Your task to perform on an android device: Add "usb-c to usb-b" to the cart on costco Image 0: 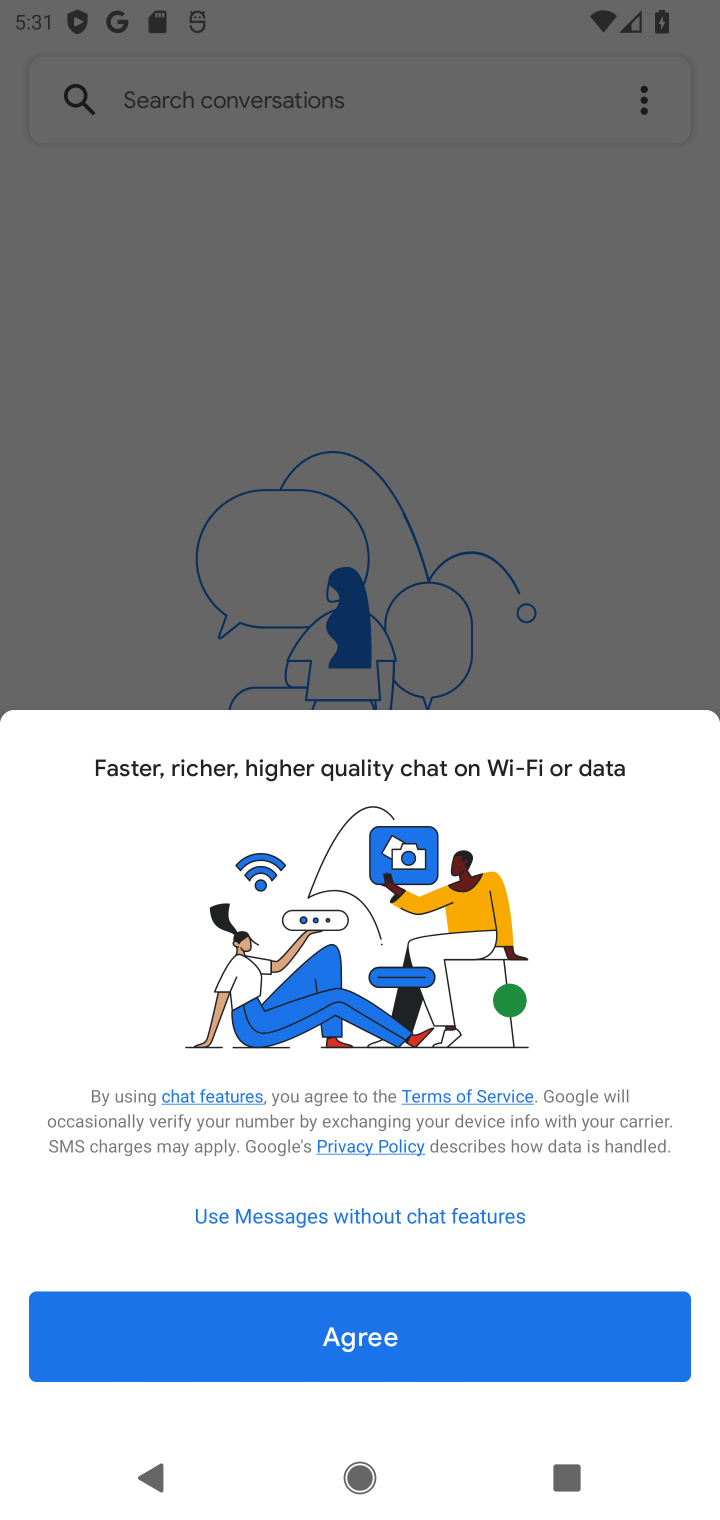
Step 0: press home button
Your task to perform on an android device: Add "usb-c to usb-b" to the cart on costco Image 1: 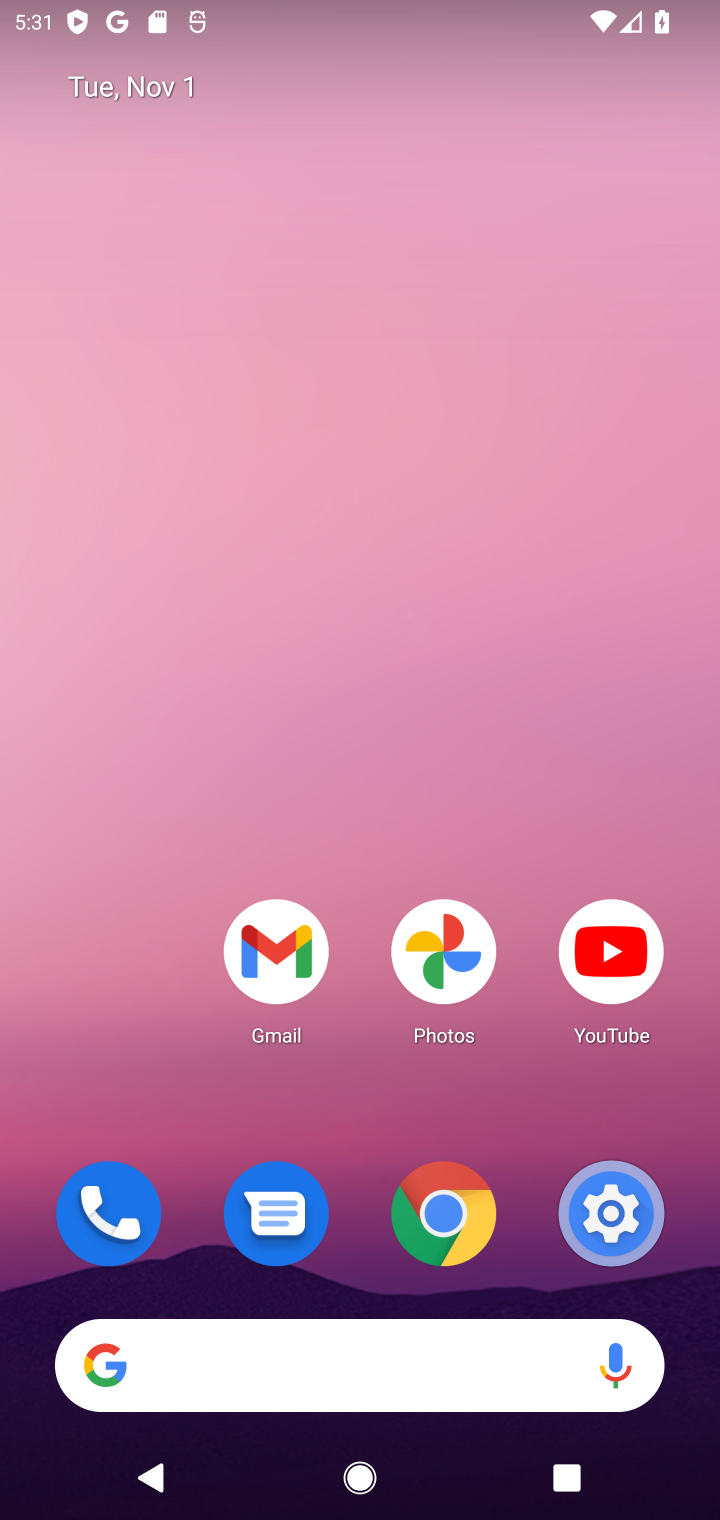
Step 1: click (435, 1225)
Your task to perform on an android device: Add "usb-c to usb-b" to the cart on costco Image 2: 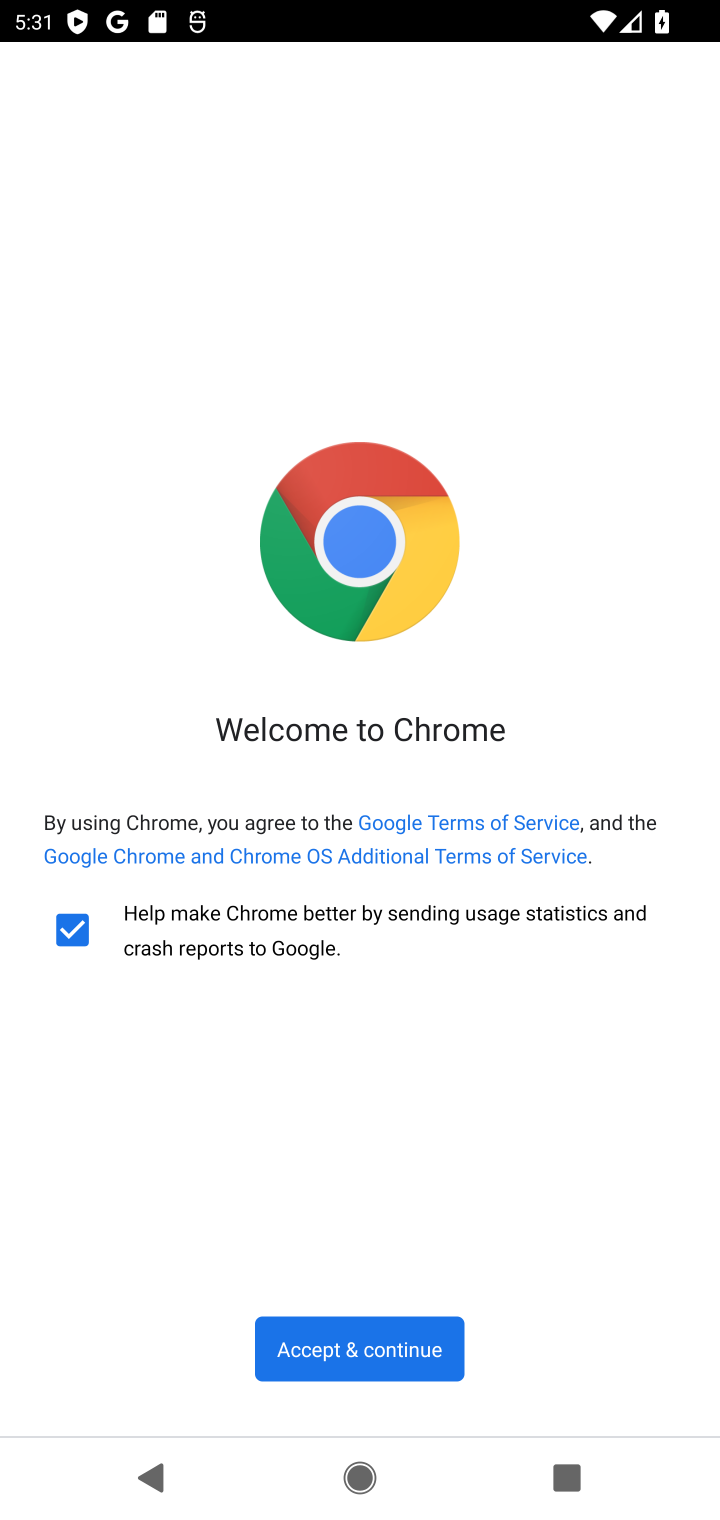
Step 2: click (343, 1350)
Your task to perform on an android device: Add "usb-c to usb-b" to the cart on costco Image 3: 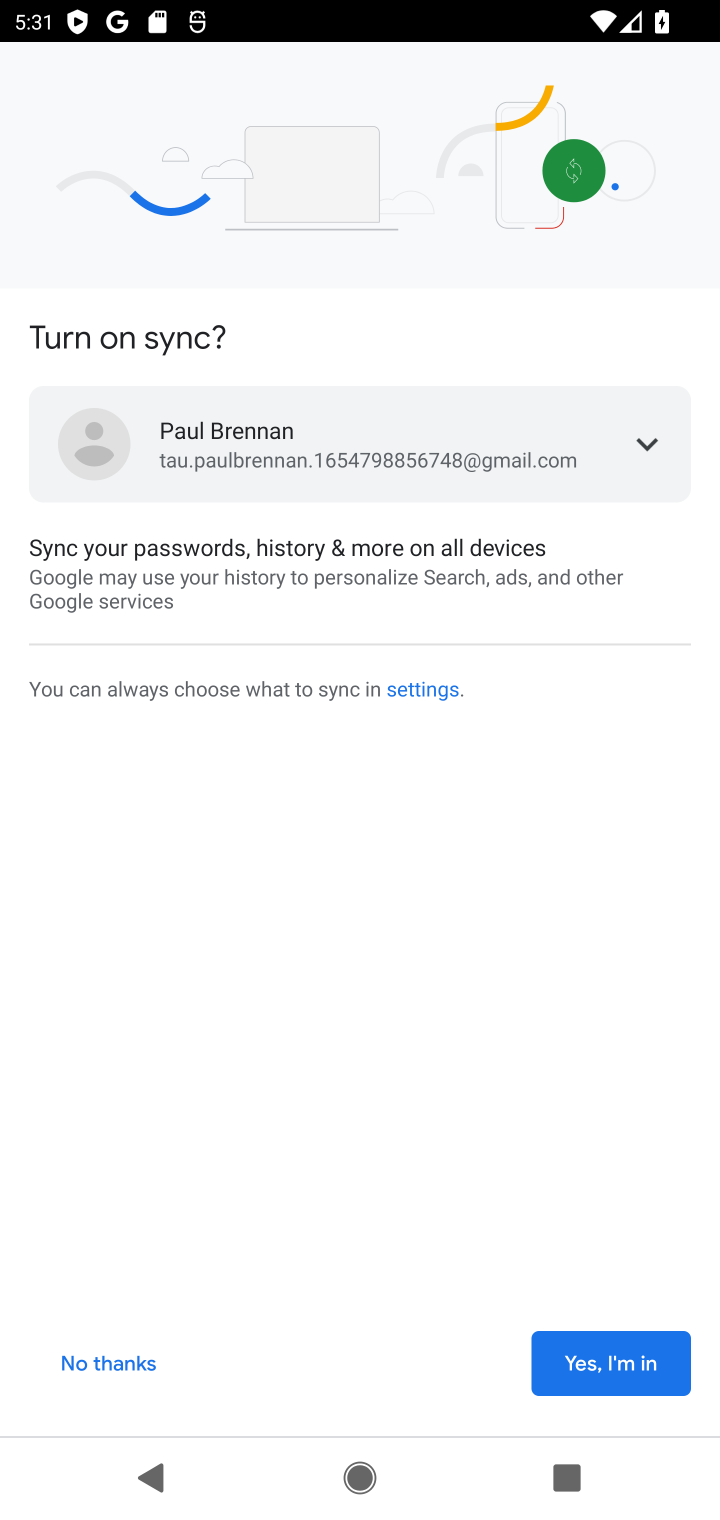
Step 3: click (567, 1362)
Your task to perform on an android device: Add "usb-c to usb-b" to the cart on costco Image 4: 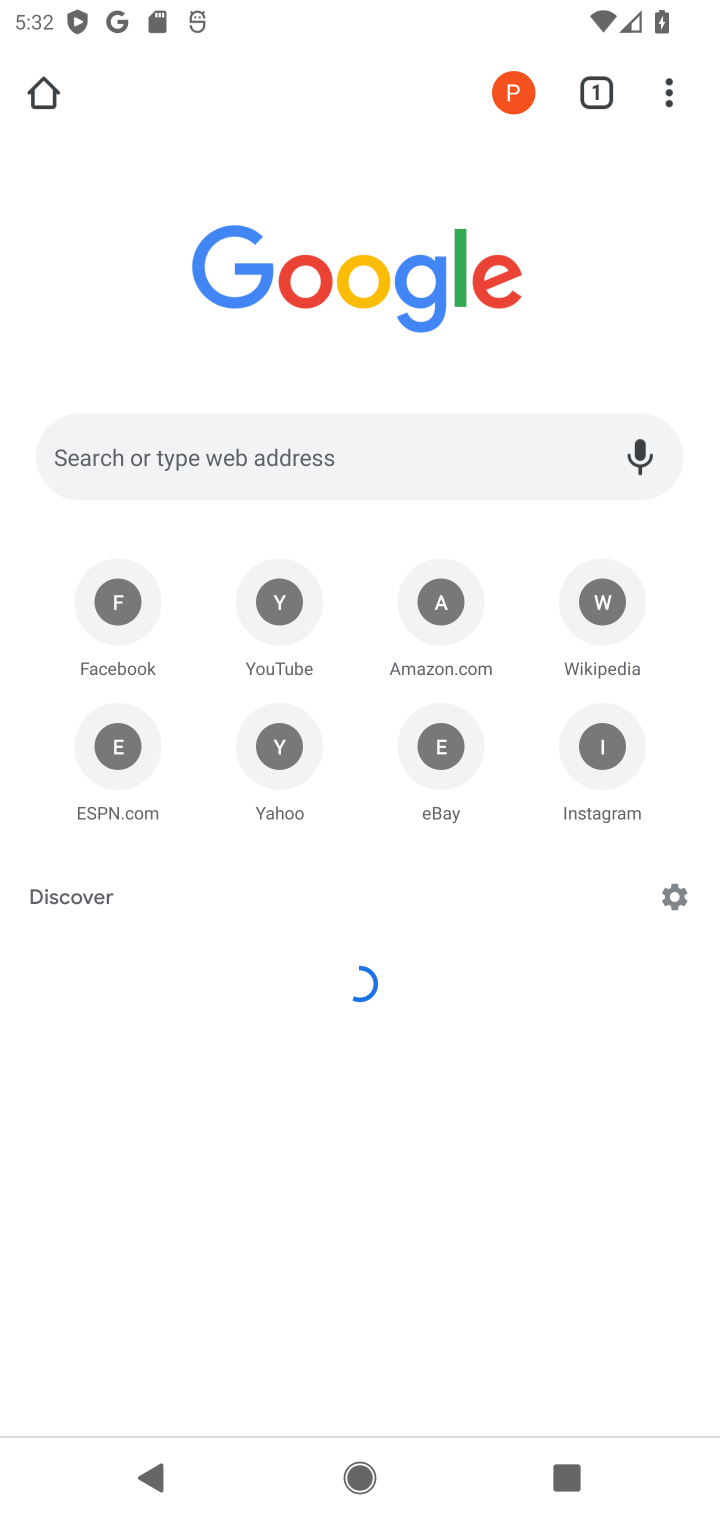
Step 4: click (236, 419)
Your task to perform on an android device: Add "usb-c to usb-b" to the cart on costco Image 5: 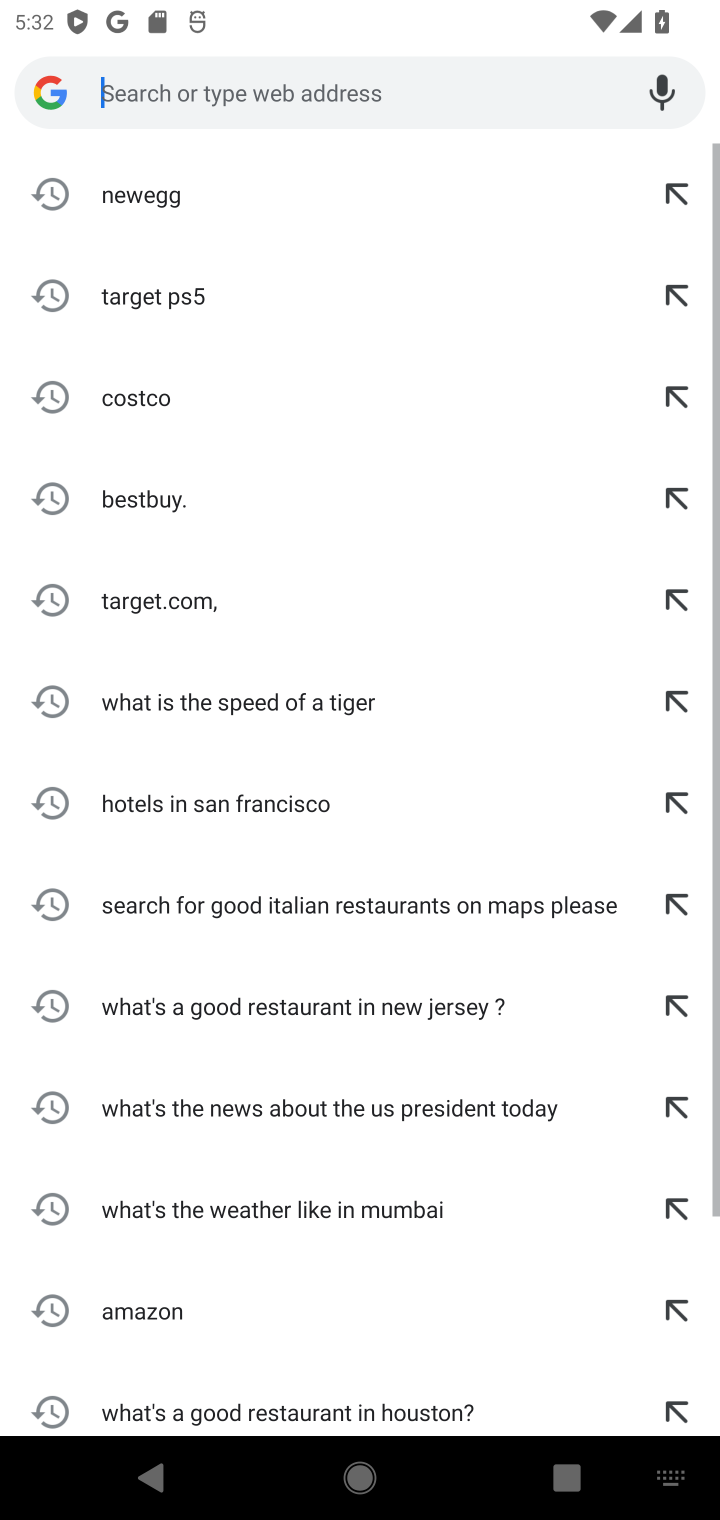
Step 5: click (199, 401)
Your task to perform on an android device: Add "usb-c to usb-b" to the cart on costco Image 6: 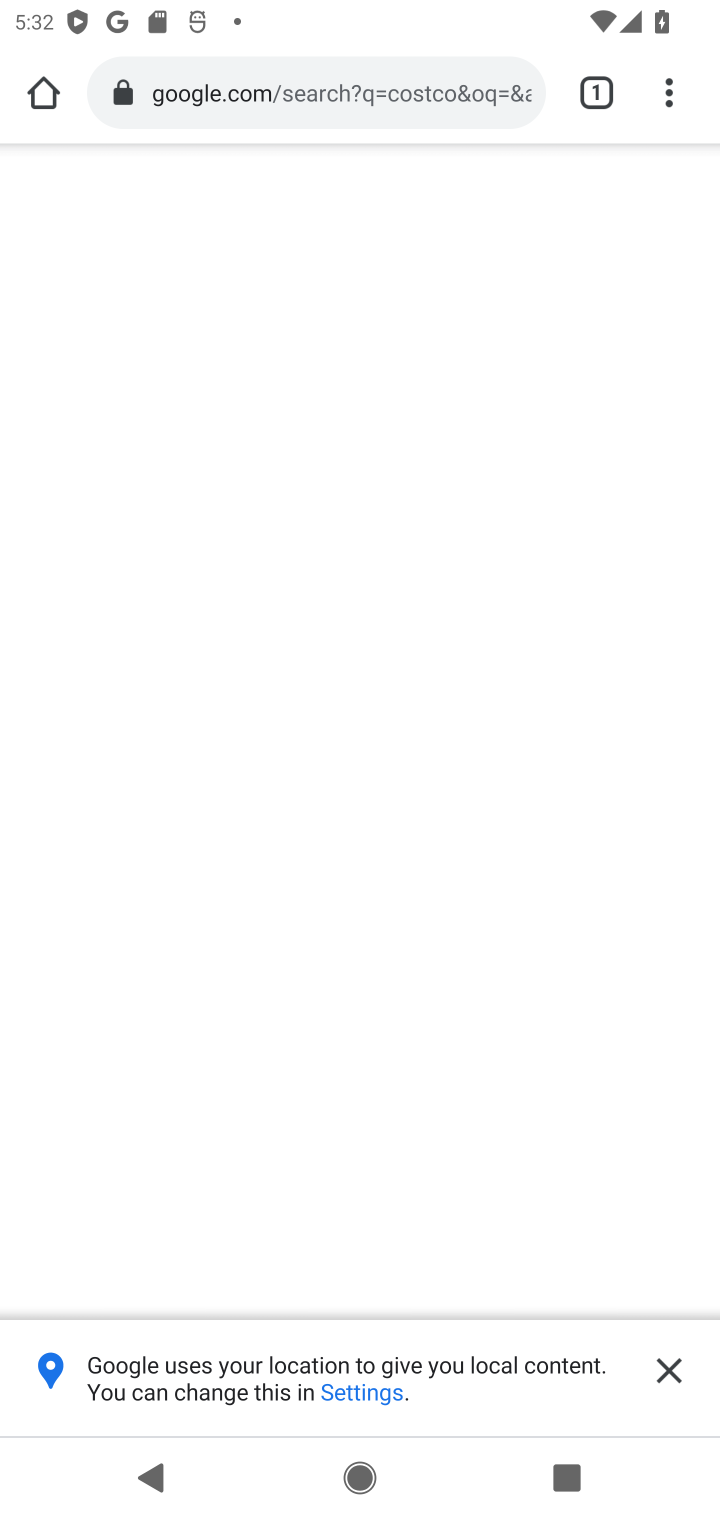
Step 6: click (680, 1356)
Your task to perform on an android device: Add "usb-c to usb-b" to the cart on costco Image 7: 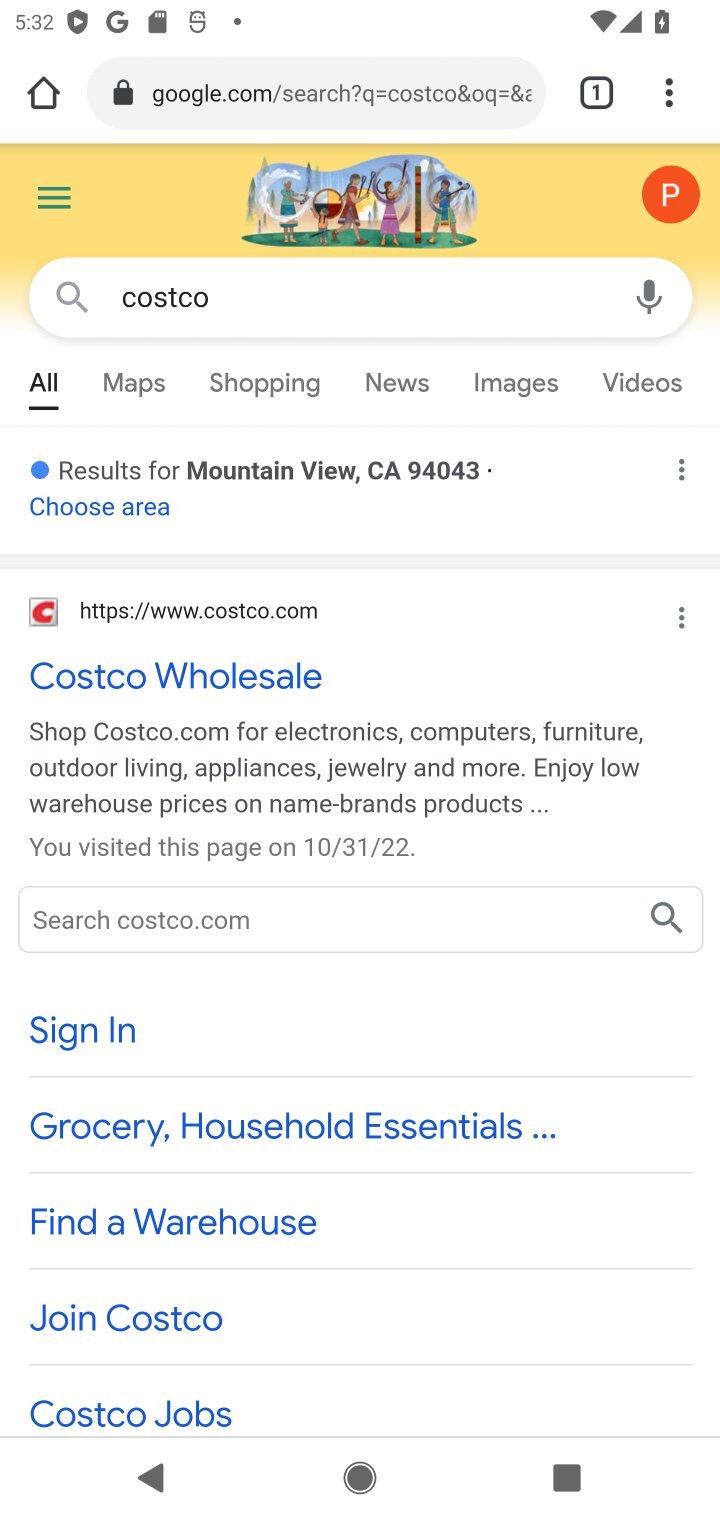
Step 7: click (272, 678)
Your task to perform on an android device: Add "usb-c to usb-b" to the cart on costco Image 8: 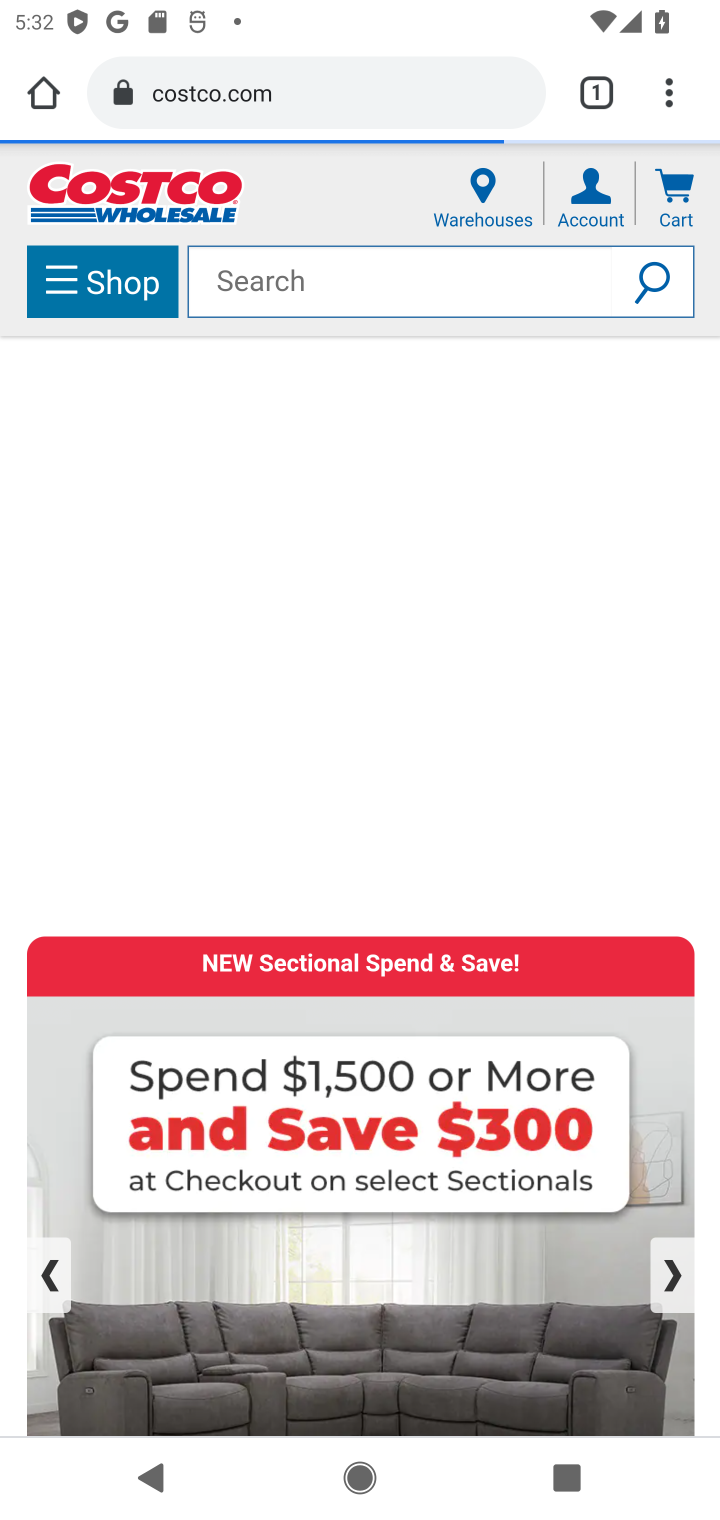
Step 8: click (206, 286)
Your task to perform on an android device: Add "usb-c to usb-b" to the cart on costco Image 9: 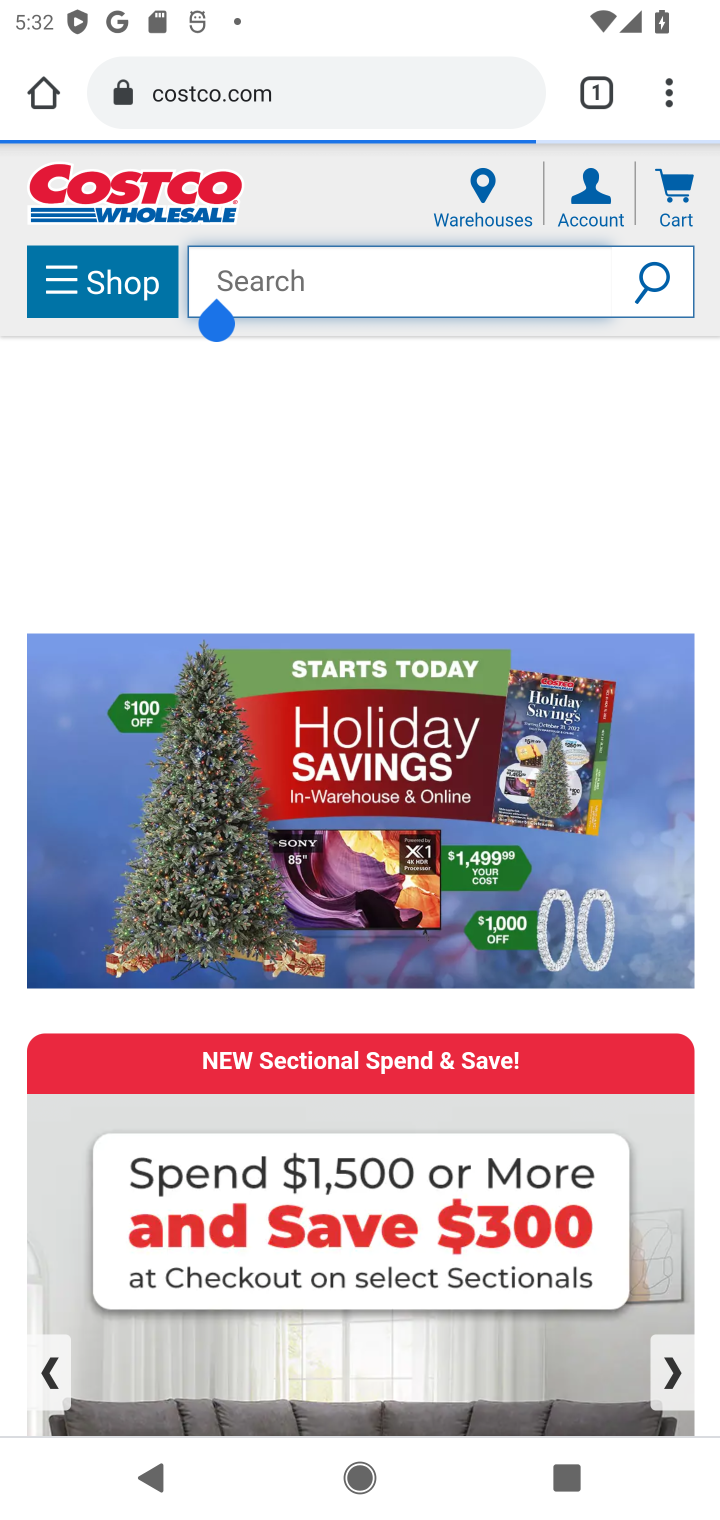
Step 9: type "usb-c to usb-b"
Your task to perform on an android device: Add "usb-c to usb-b" to the cart on costco Image 10: 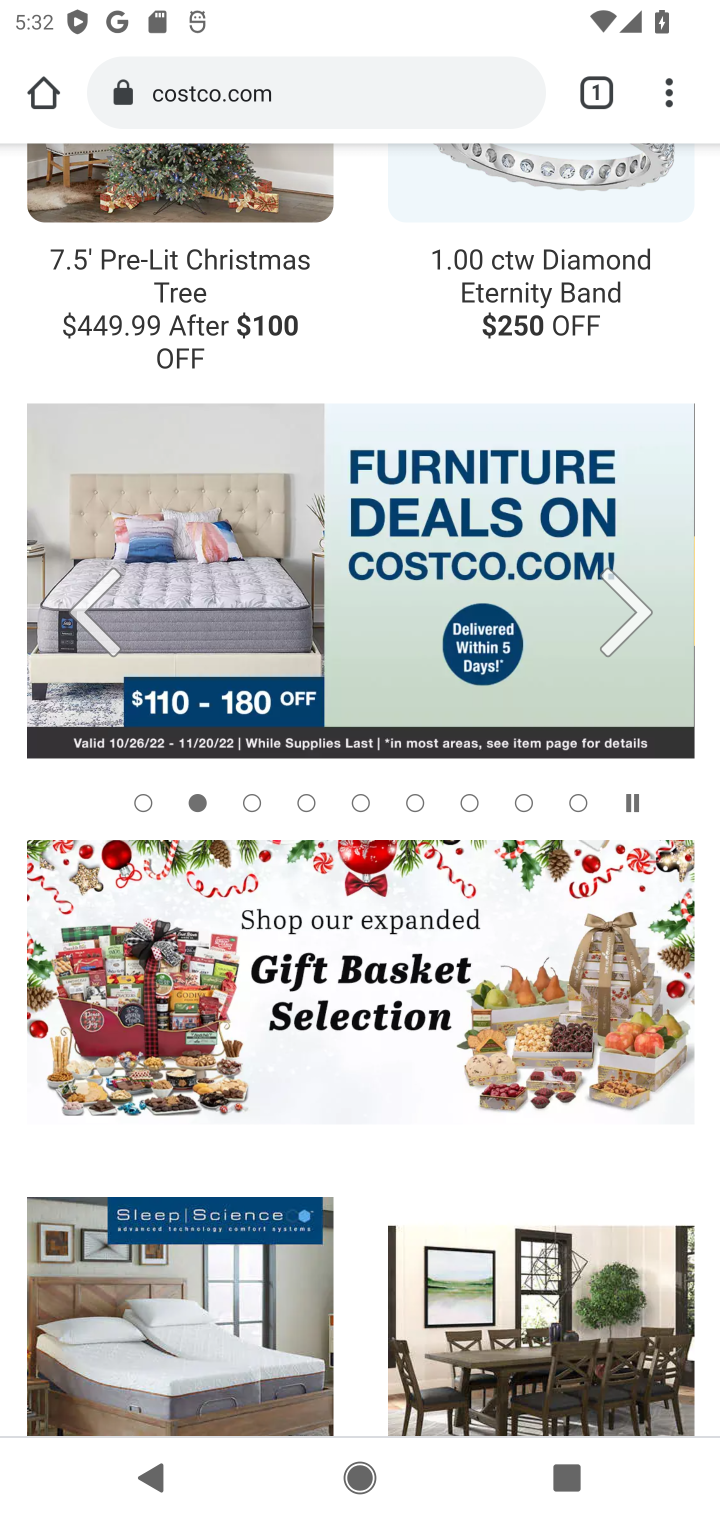
Step 10: drag from (404, 326) to (425, 1216)
Your task to perform on an android device: Add "usb-c to usb-b" to the cart on costco Image 11: 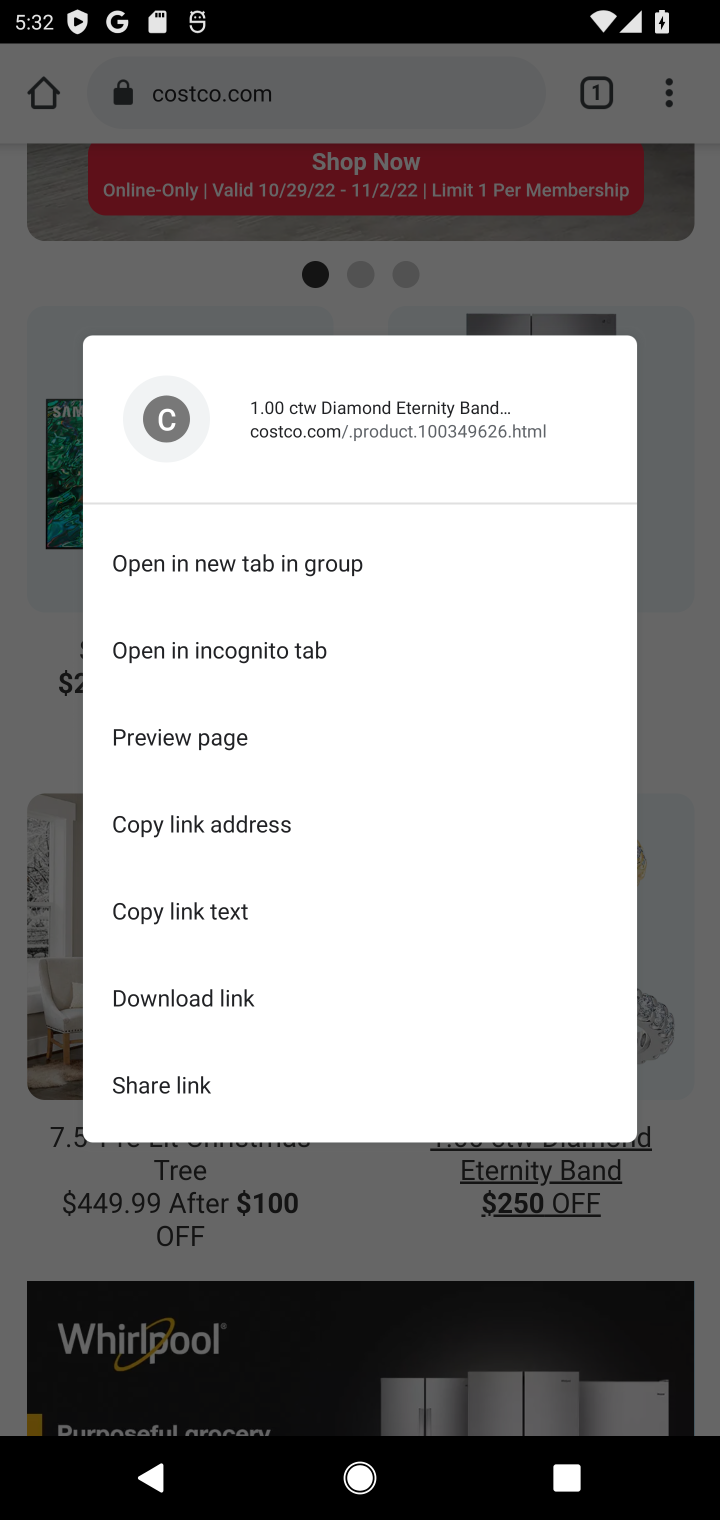
Step 11: click (336, 298)
Your task to perform on an android device: Add "usb-c to usb-b" to the cart on costco Image 12: 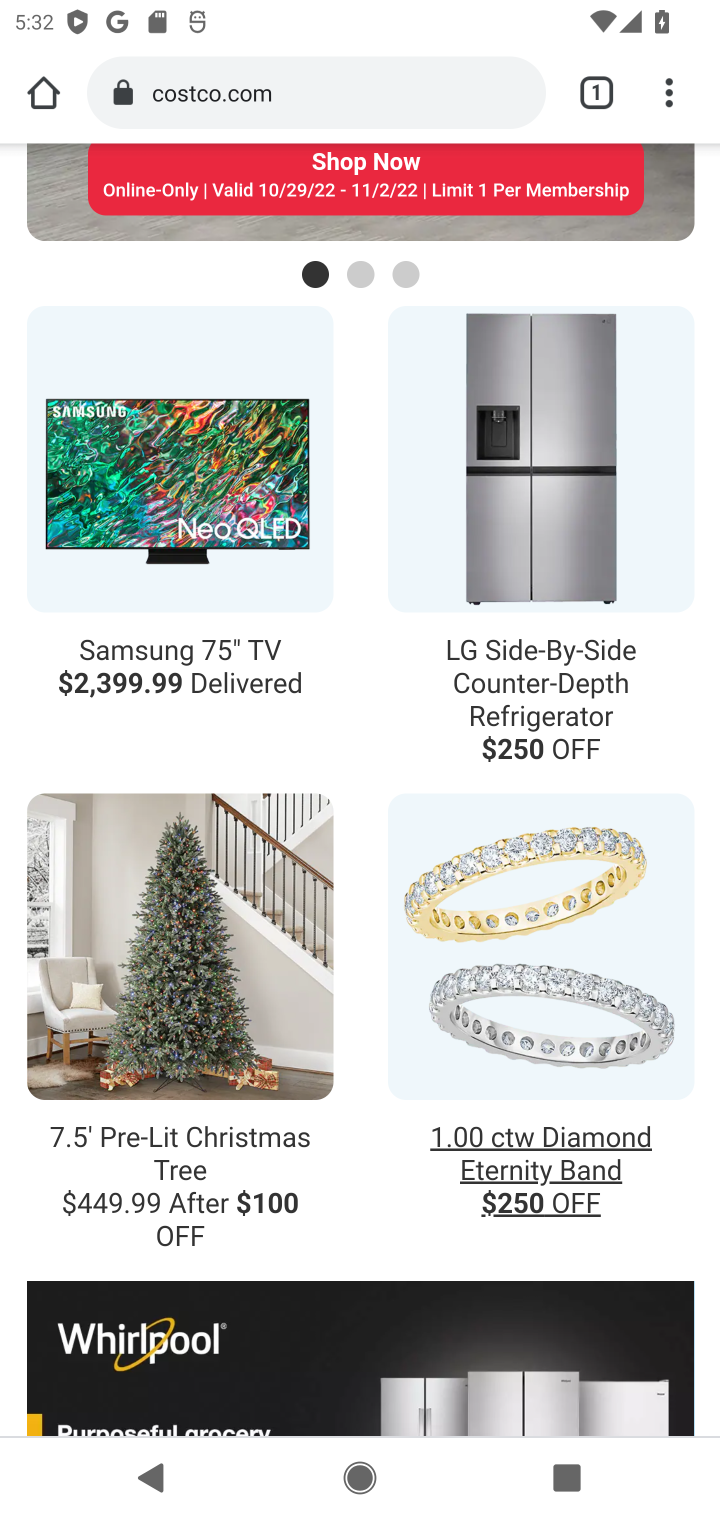
Step 12: drag from (334, 335) to (363, 1168)
Your task to perform on an android device: Add "usb-c to usb-b" to the cart on costco Image 13: 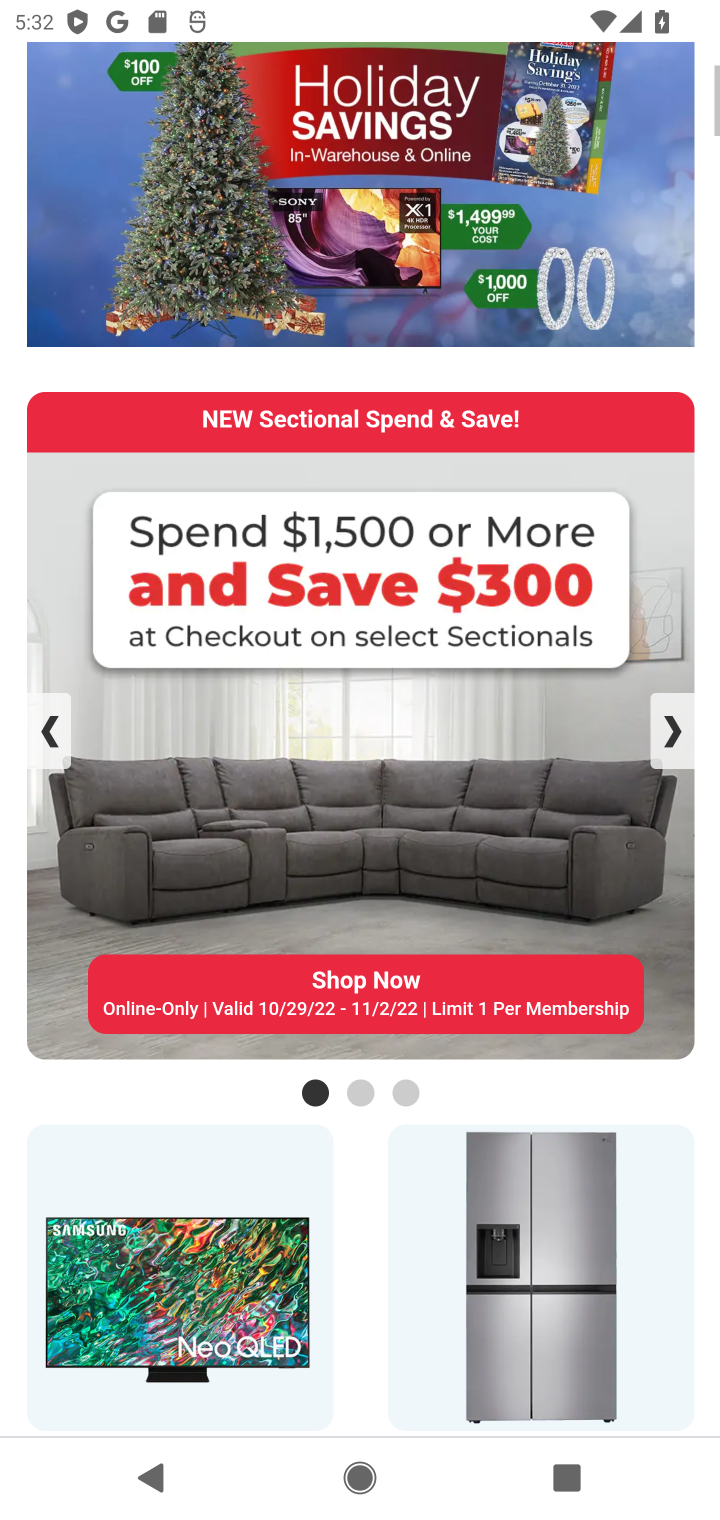
Step 13: drag from (229, 1199) to (338, 1209)
Your task to perform on an android device: Add "usb-c to usb-b" to the cart on costco Image 14: 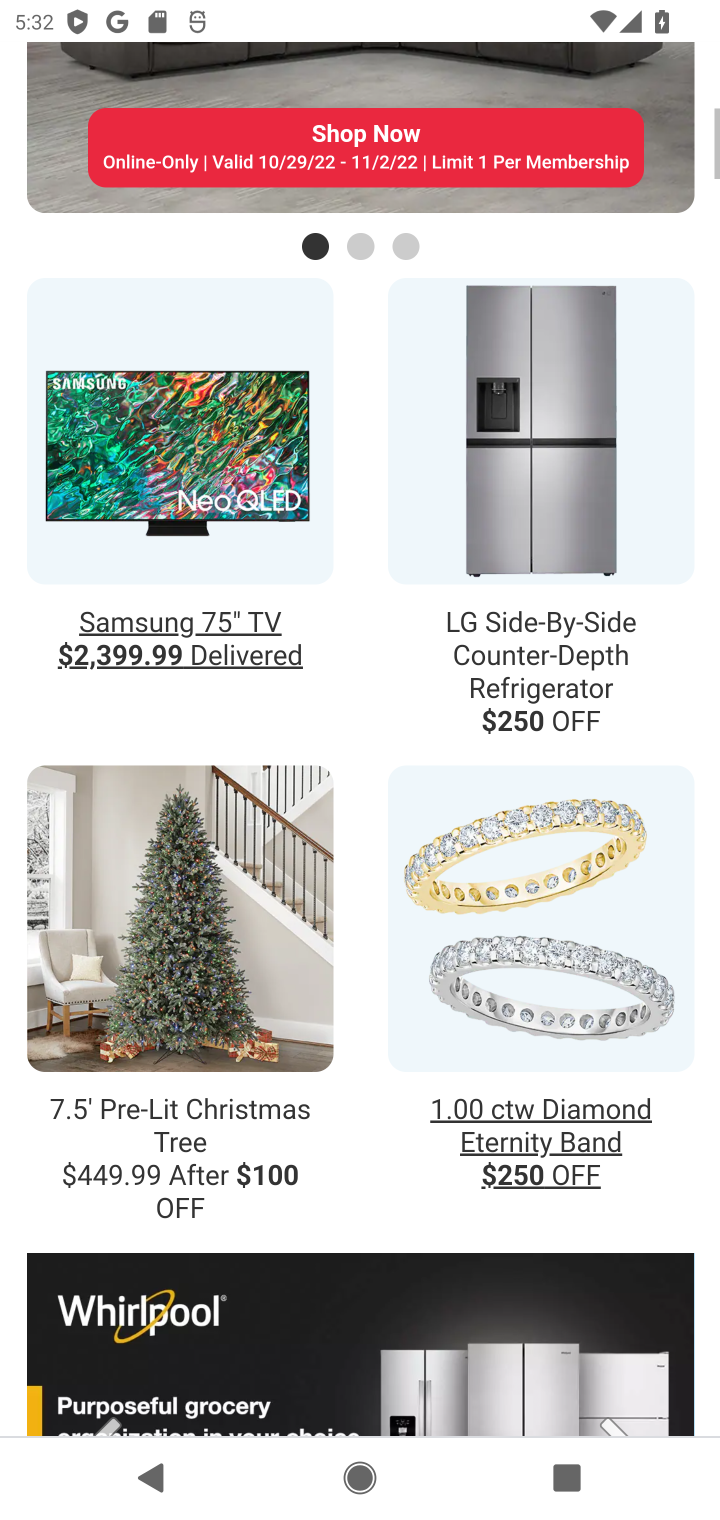
Step 14: drag from (396, 716) to (372, 1200)
Your task to perform on an android device: Add "usb-c to usb-b" to the cart on costco Image 15: 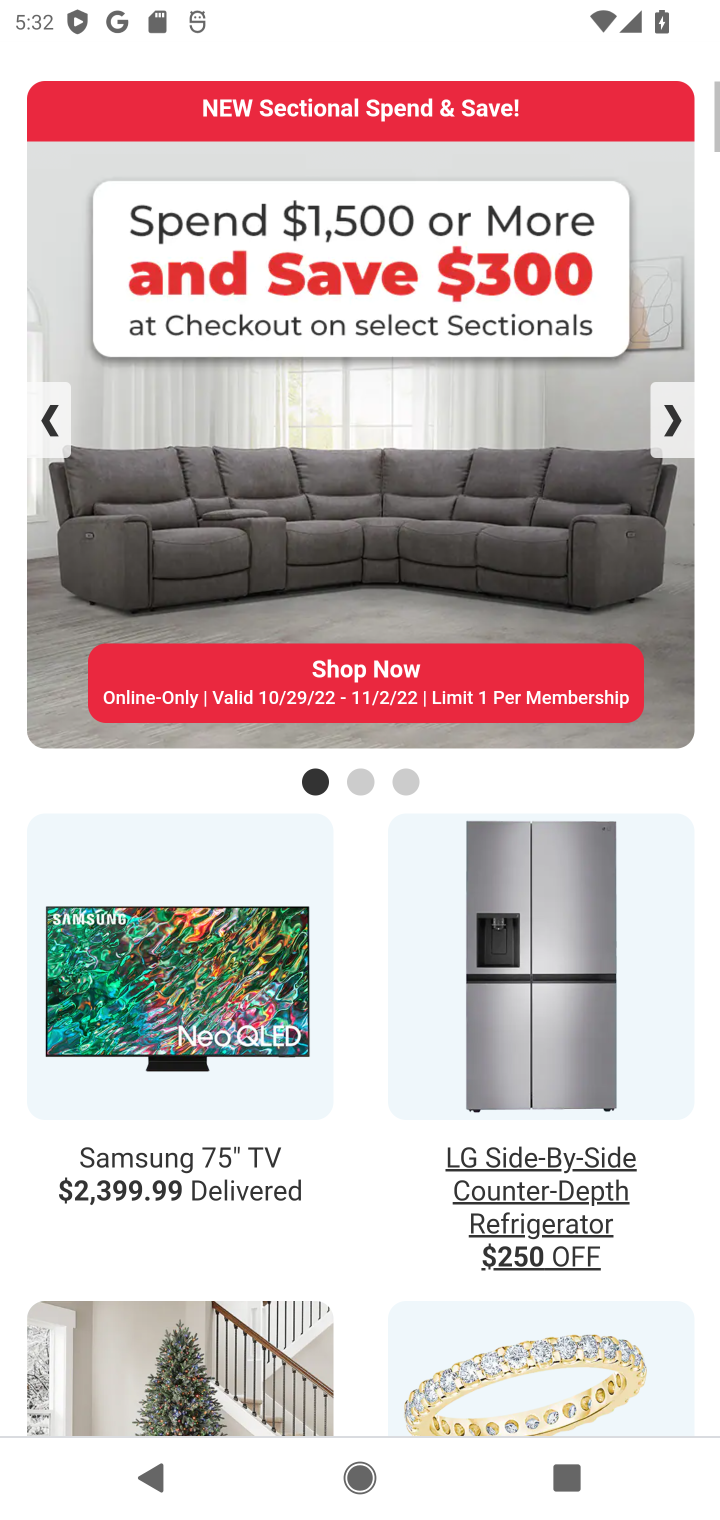
Step 15: drag from (412, 211) to (299, 1323)
Your task to perform on an android device: Add "usb-c to usb-b" to the cart on costco Image 16: 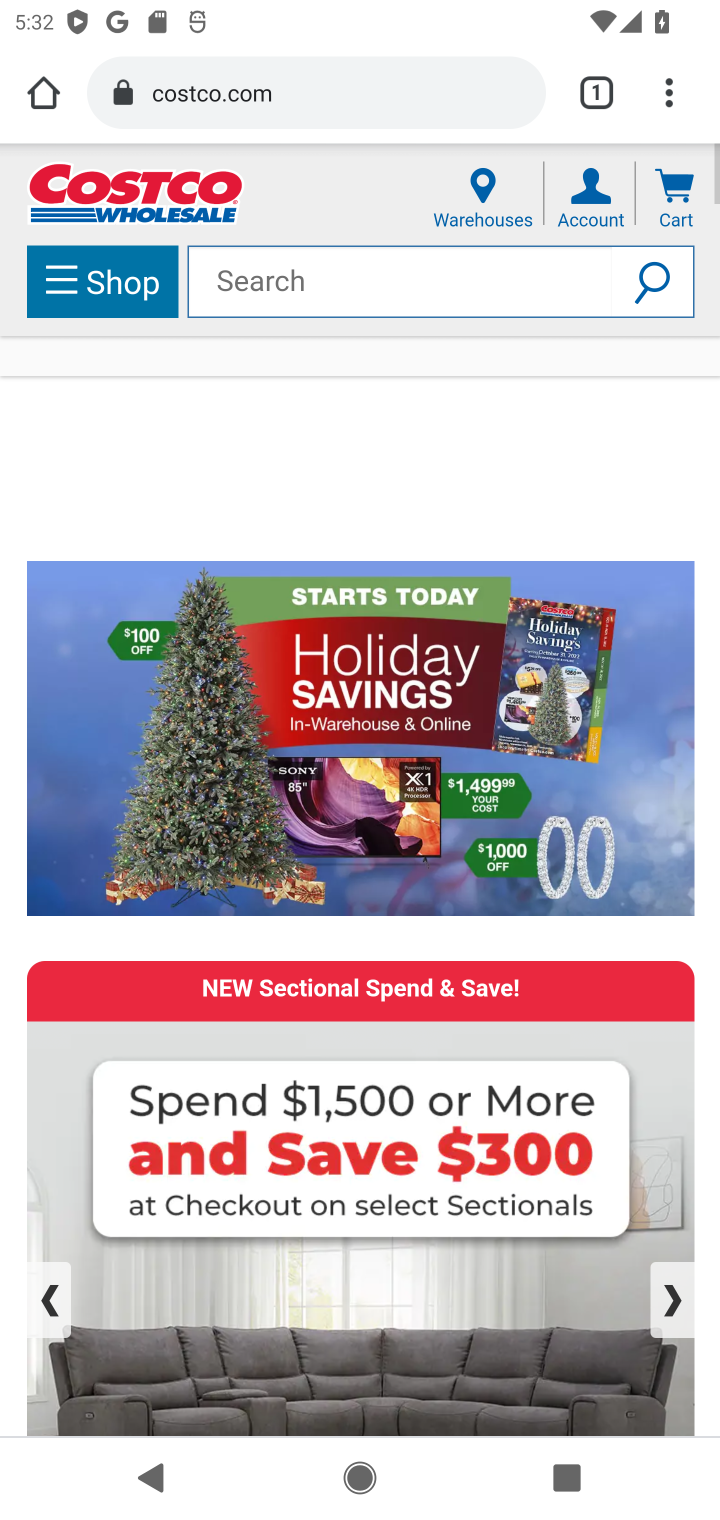
Step 16: click (345, 169)
Your task to perform on an android device: Add "usb-c to usb-b" to the cart on costco Image 17: 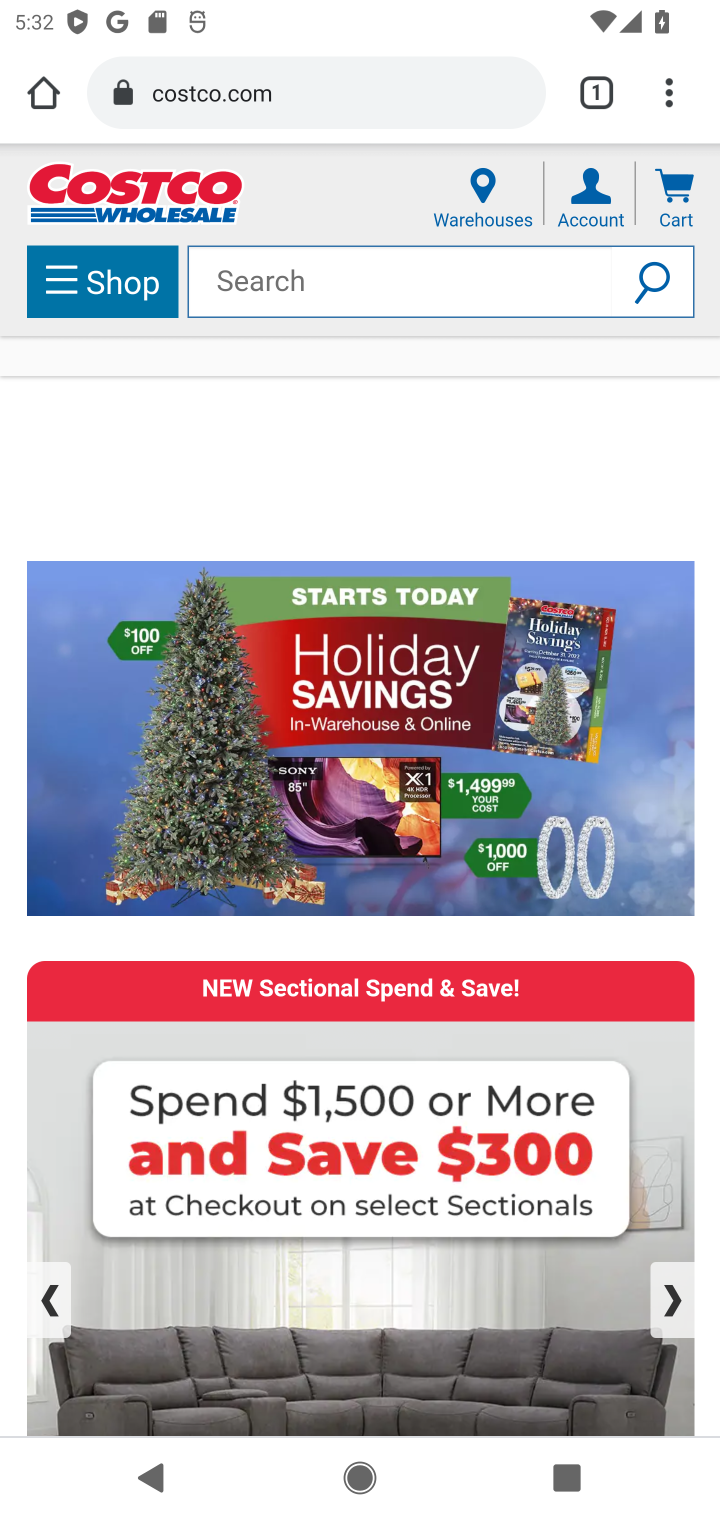
Step 17: click (294, 285)
Your task to perform on an android device: Add "usb-c to usb-b" to the cart on costco Image 18: 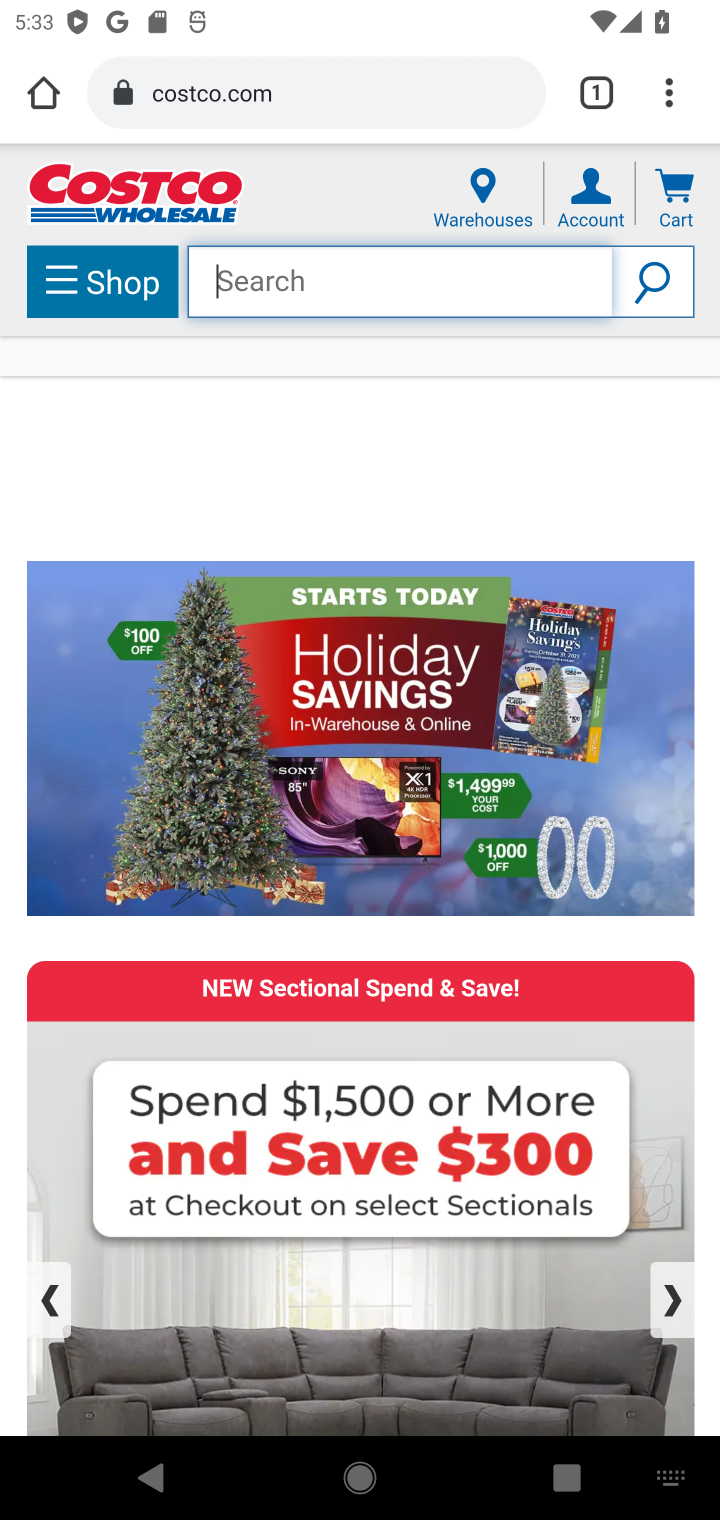
Step 18: type "usb-c to usb-b"
Your task to perform on an android device: Add "usb-c to usb-b" to the cart on costco Image 19: 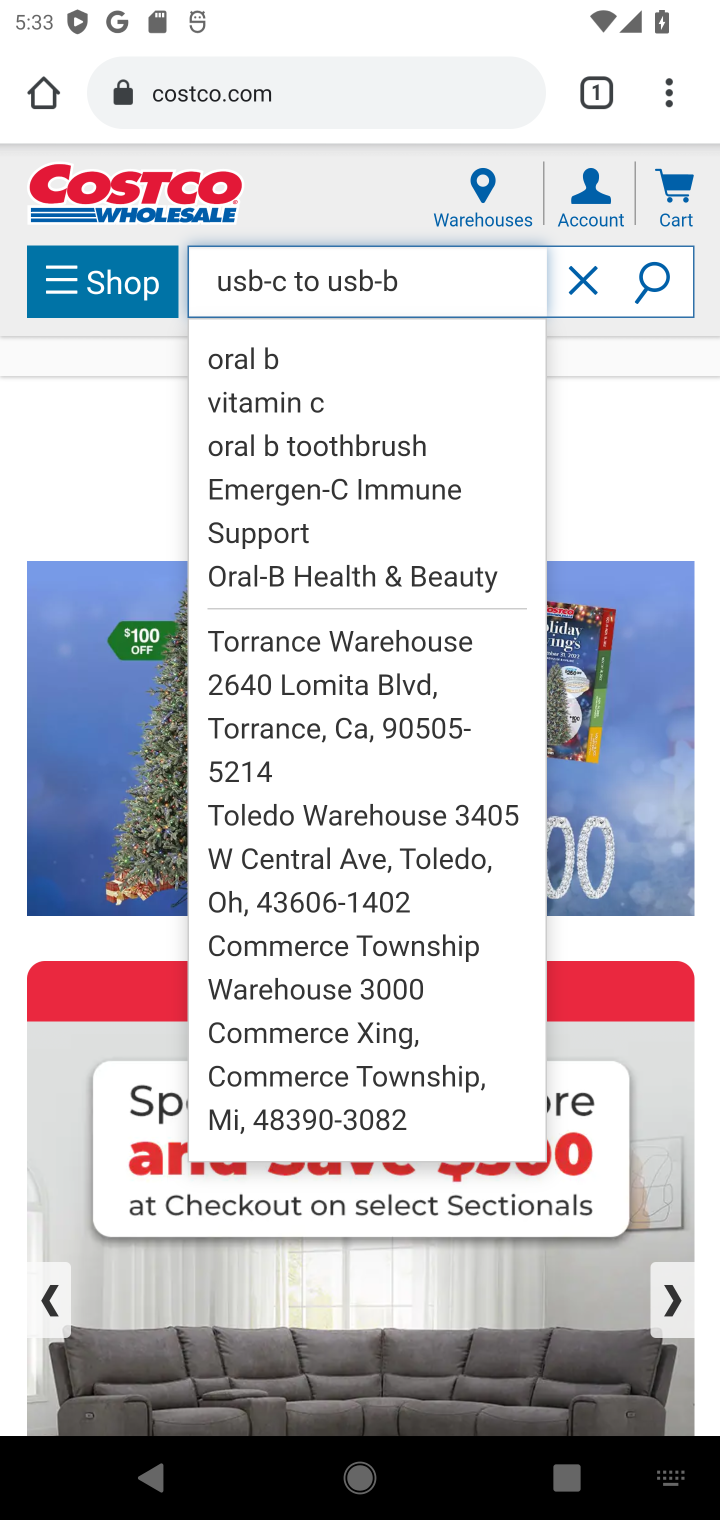
Step 19: click (627, 280)
Your task to perform on an android device: Add "usb-c to usb-b" to the cart on costco Image 20: 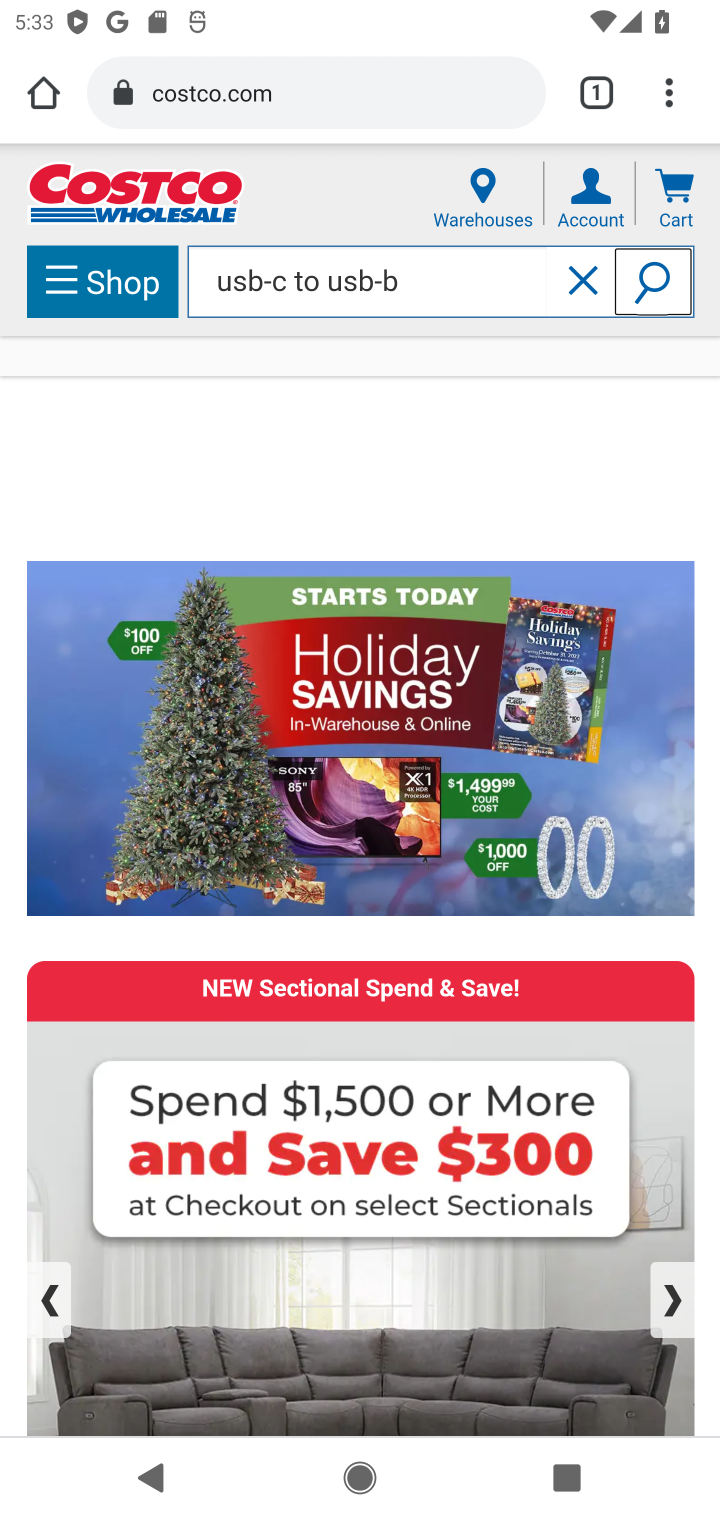
Step 20: drag from (466, 866) to (494, 351)
Your task to perform on an android device: Add "usb-c to usb-b" to the cart on costco Image 21: 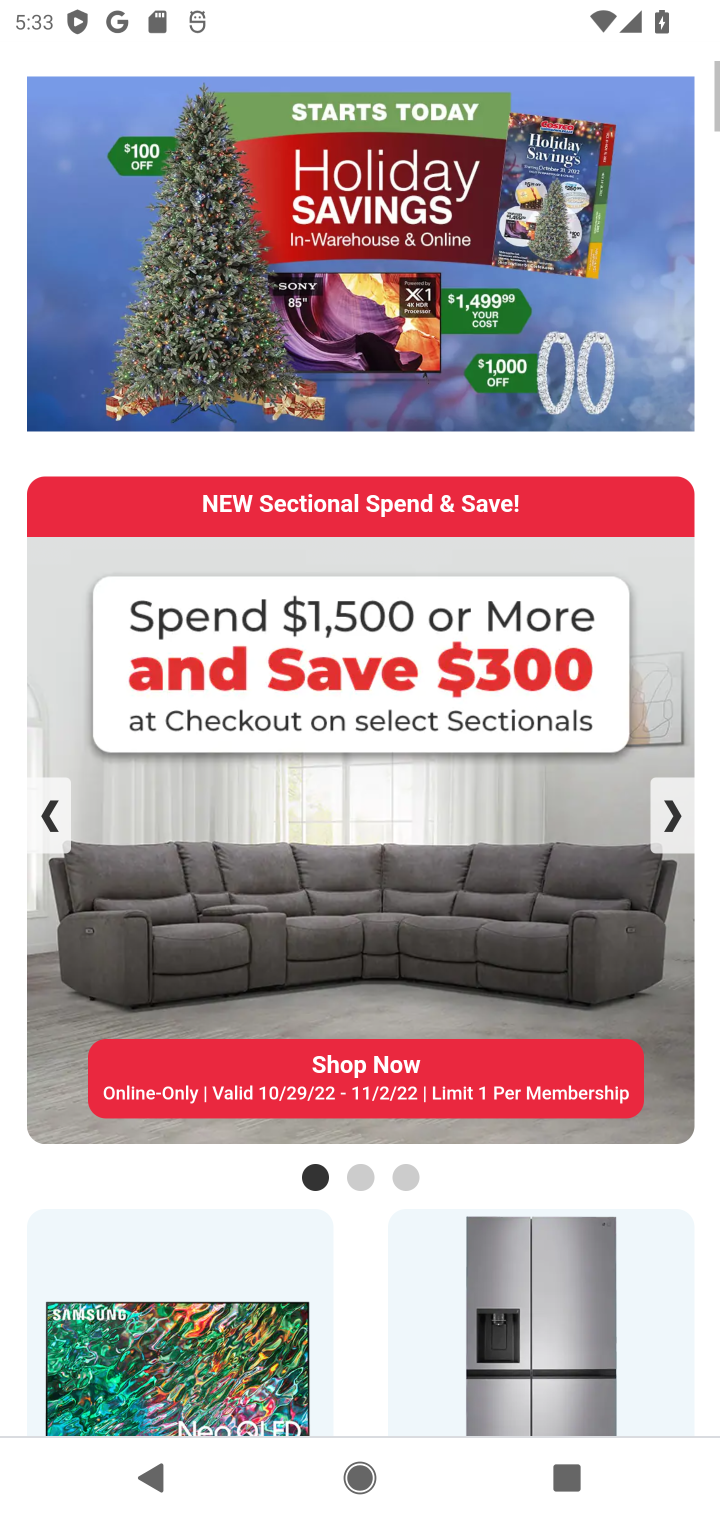
Step 21: drag from (418, 541) to (505, 1295)
Your task to perform on an android device: Add "usb-c to usb-b" to the cart on costco Image 22: 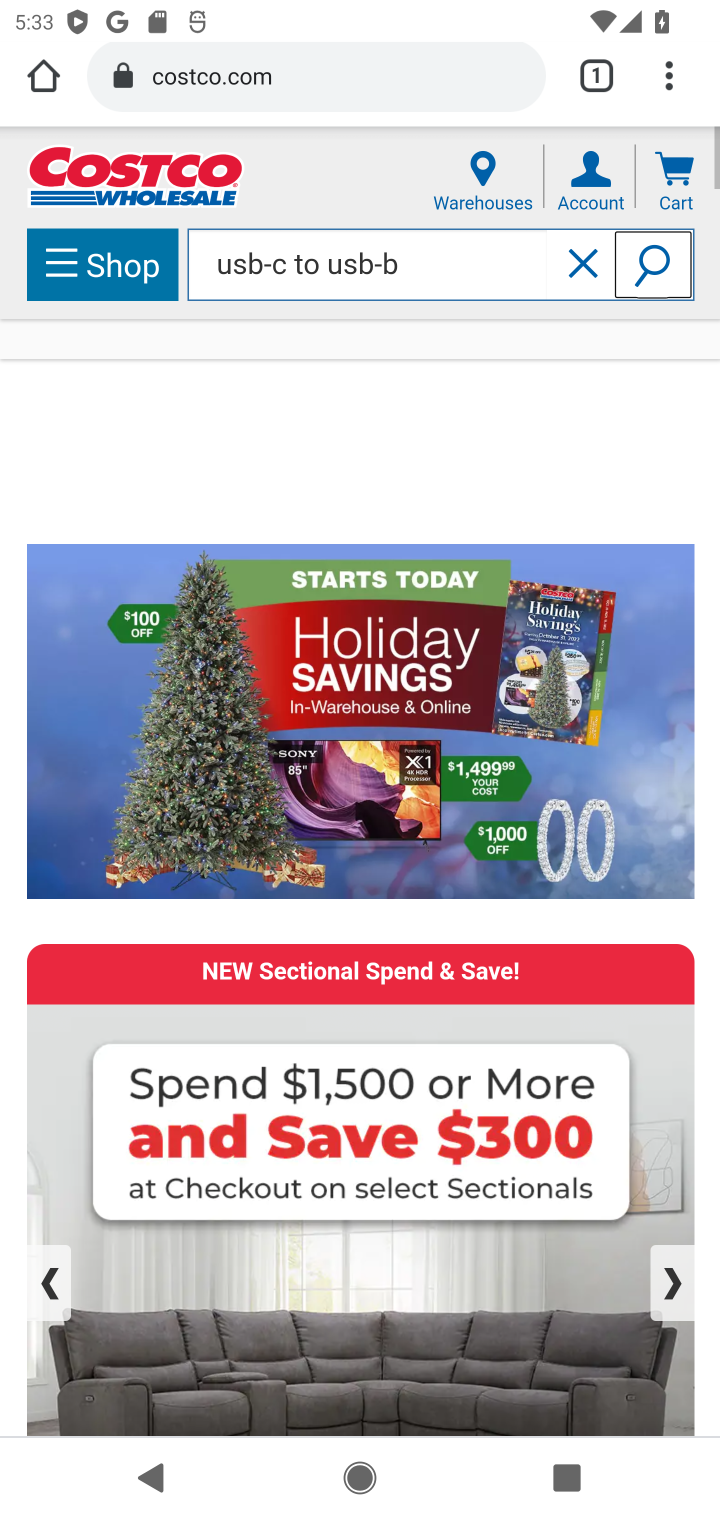
Step 22: drag from (488, 598) to (432, 1283)
Your task to perform on an android device: Add "usb-c to usb-b" to the cart on costco Image 23: 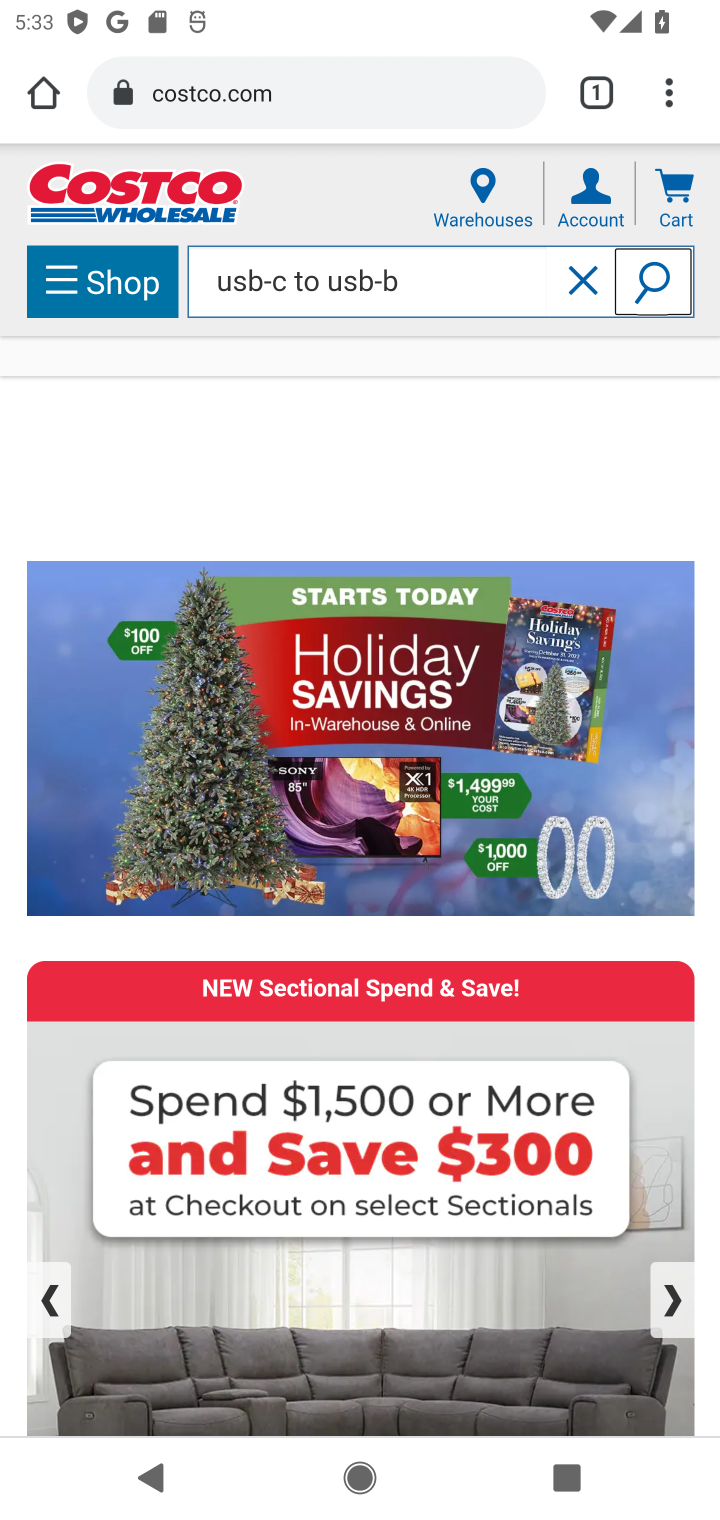
Step 23: click (643, 312)
Your task to perform on an android device: Add "usb-c to usb-b" to the cart on costco Image 24: 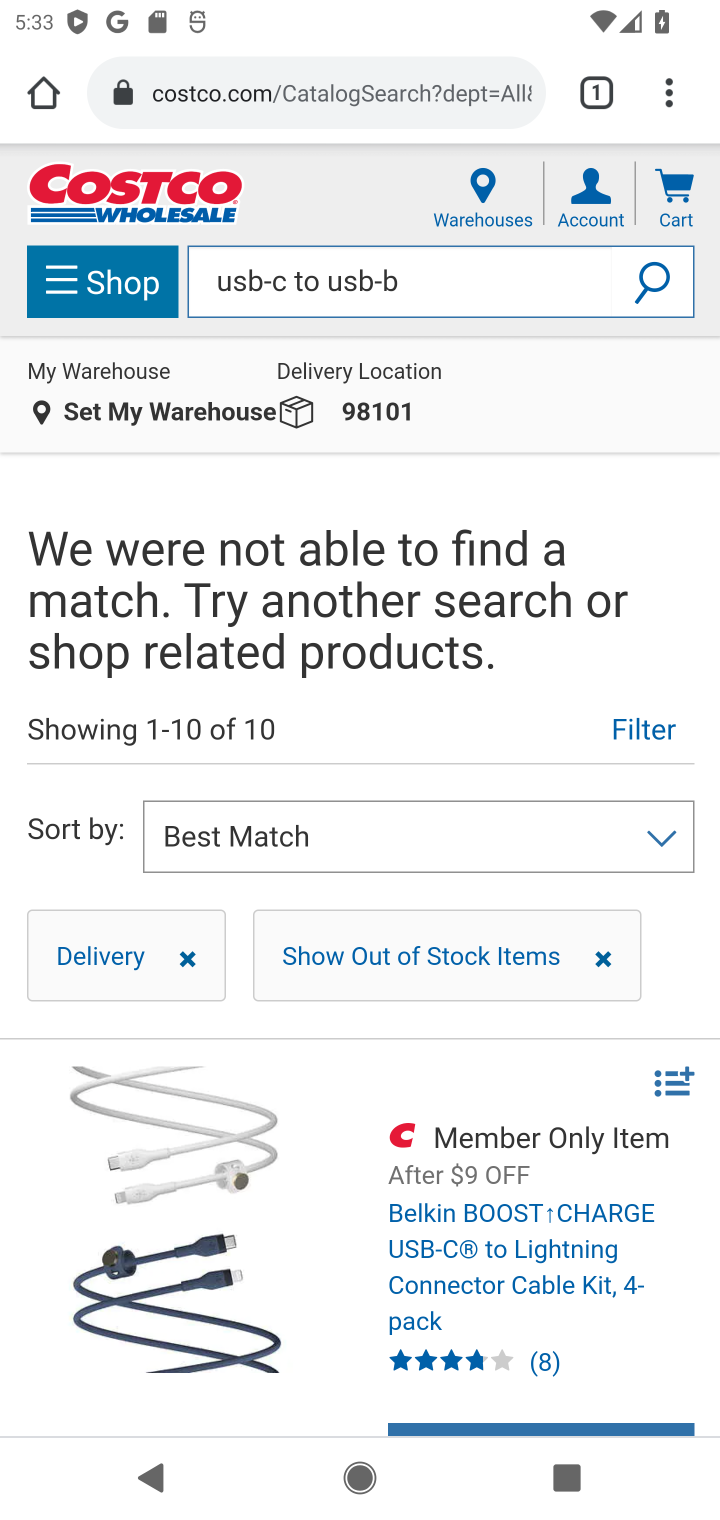
Step 24: drag from (504, 1324) to (547, 474)
Your task to perform on an android device: Add "usb-c to usb-b" to the cart on costco Image 25: 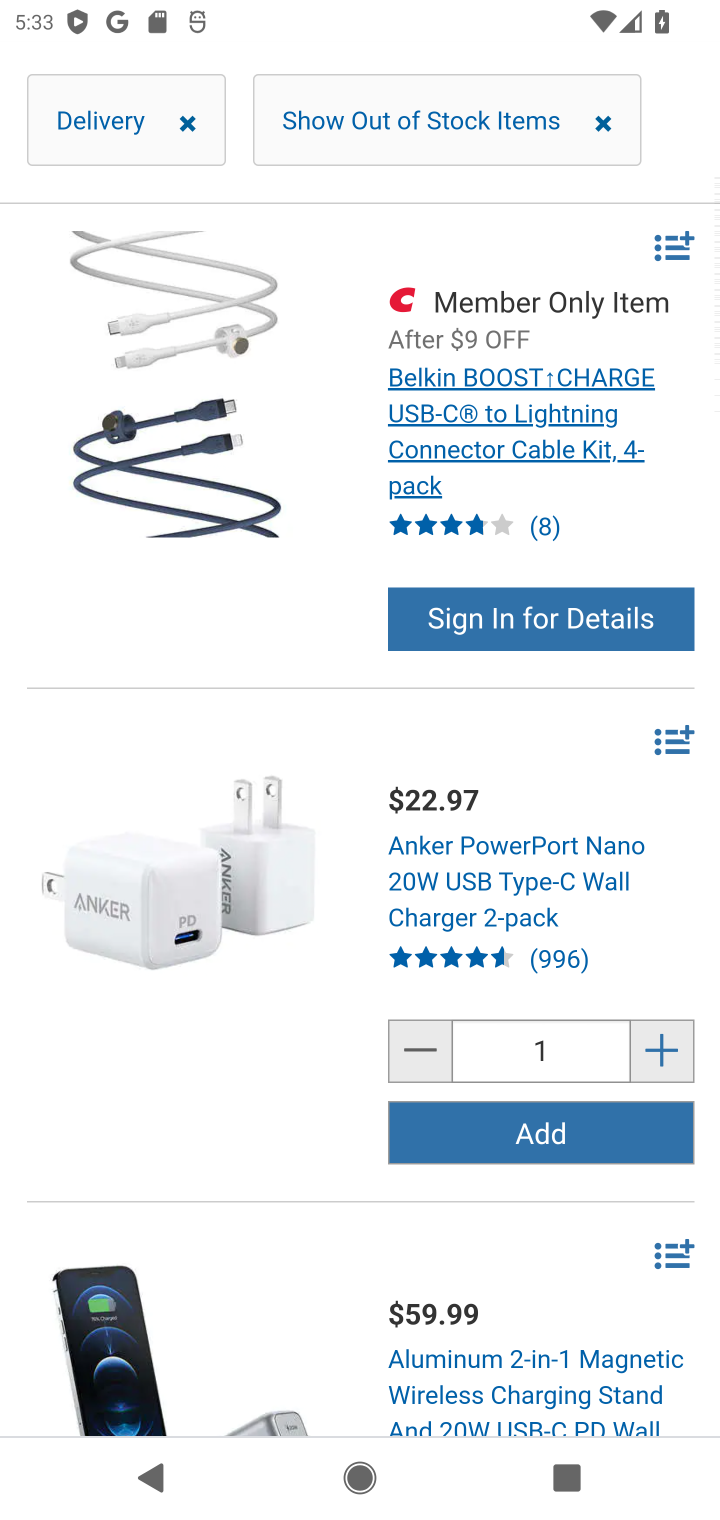
Step 25: drag from (547, 738) to (547, 455)
Your task to perform on an android device: Add "usb-c to usb-b" to the cart on costco Image 26: 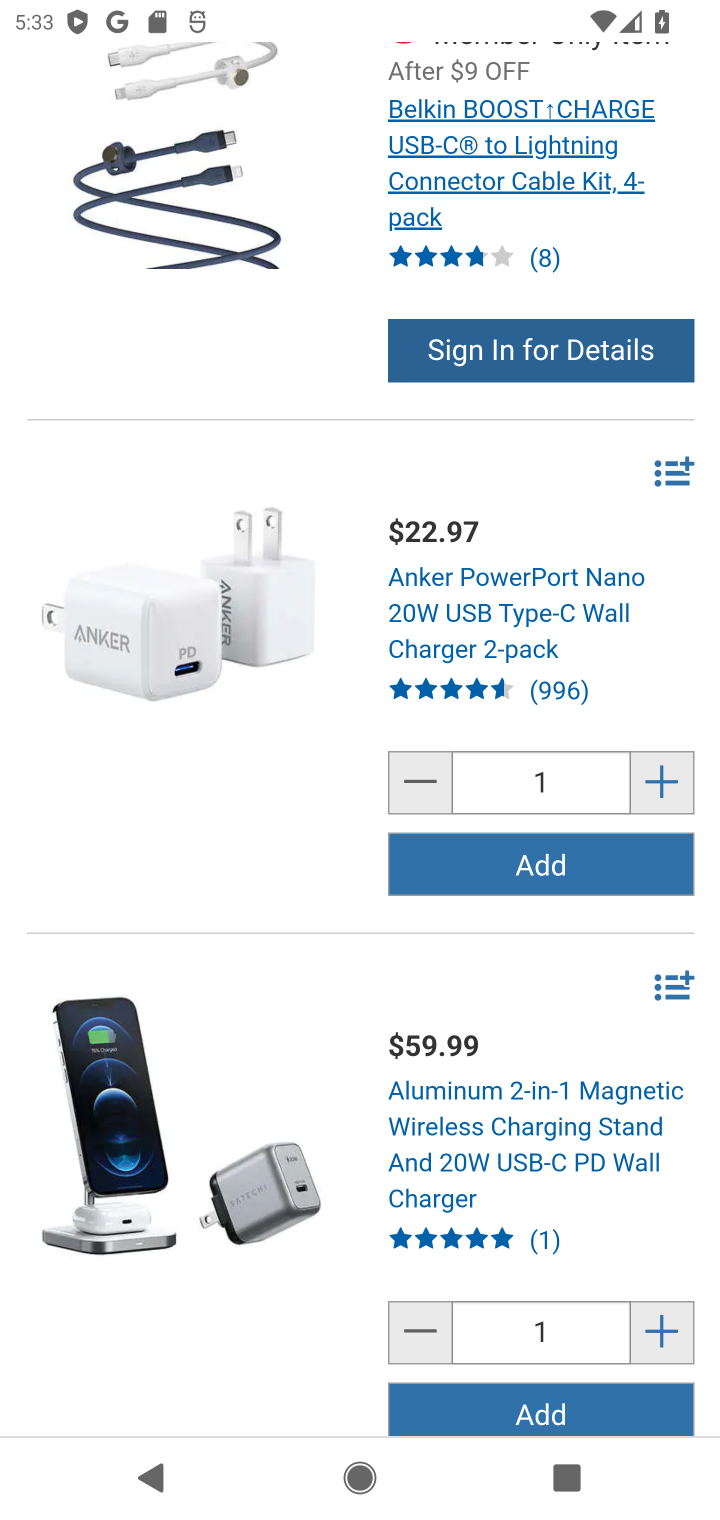
Step 26: drag from (503, 1206) to (476, 500)
Your task to perform on an android device: Add "usb-c to usb-b" to the cart on costco Image 27: 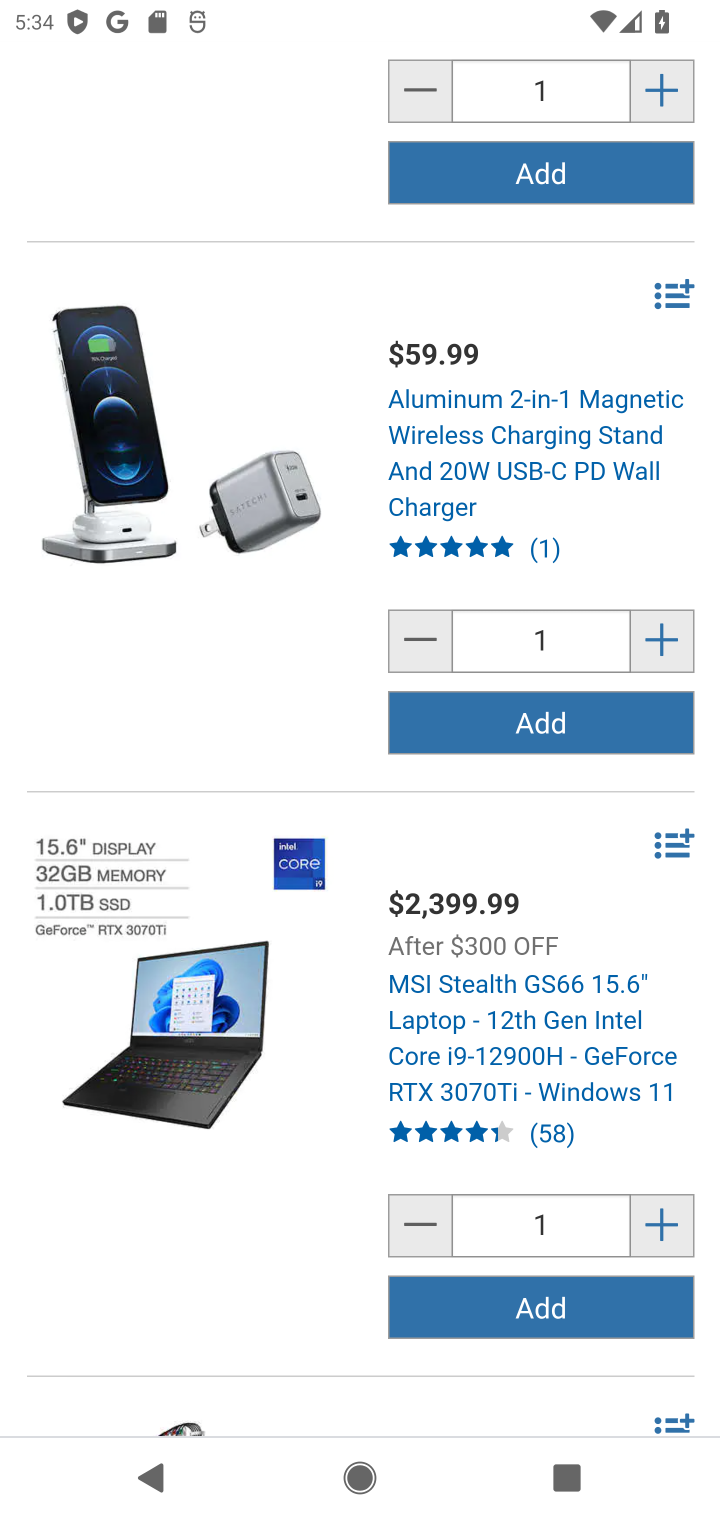
Step 27: drag from (492, 1436) to (499, 542)
Your task to perform on an android device: Add "usb-c to usb-b" to the cart on costco Image 28: 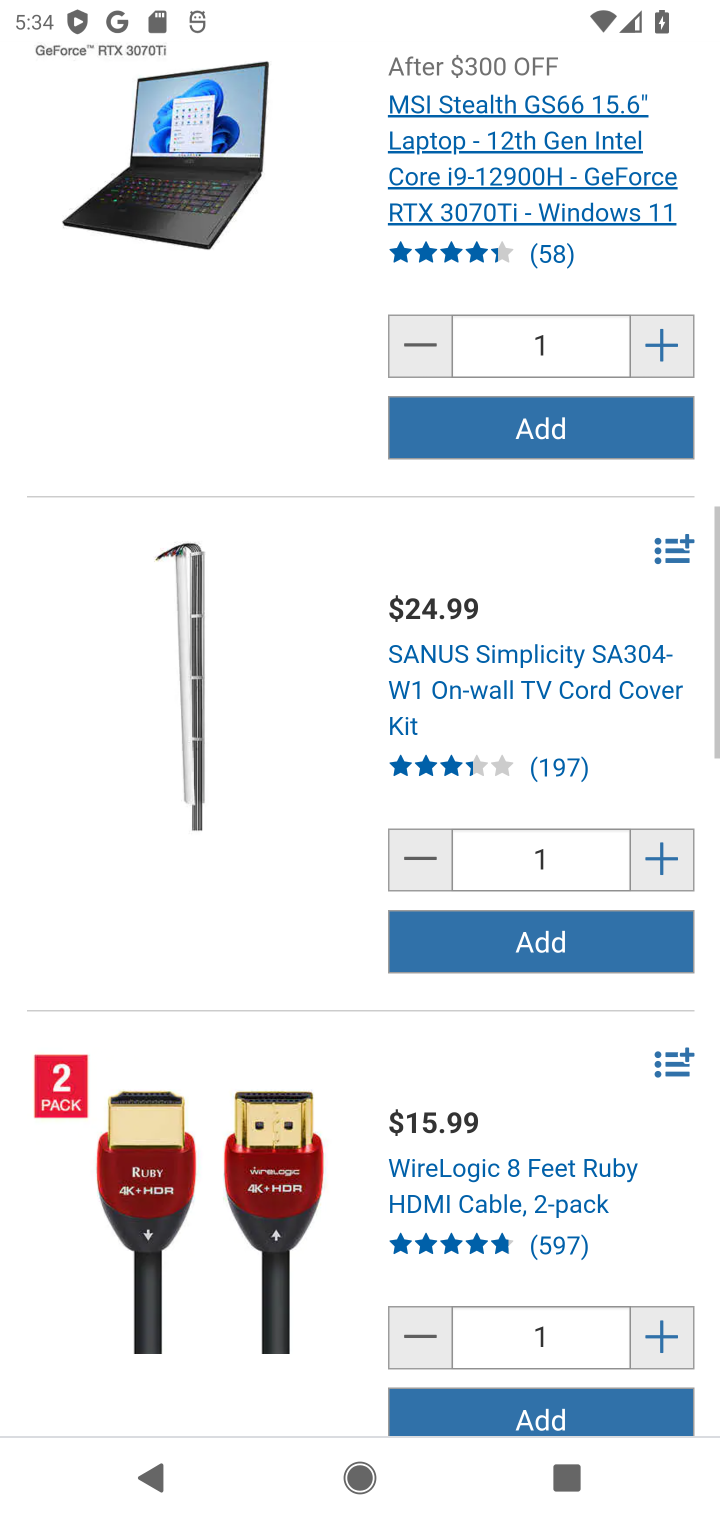
Step 28: drag from (402, 1352) to (388, 602)
Your task to perform on an android device: Add "usb-c to usb-b" to the cart on costco Image 29: 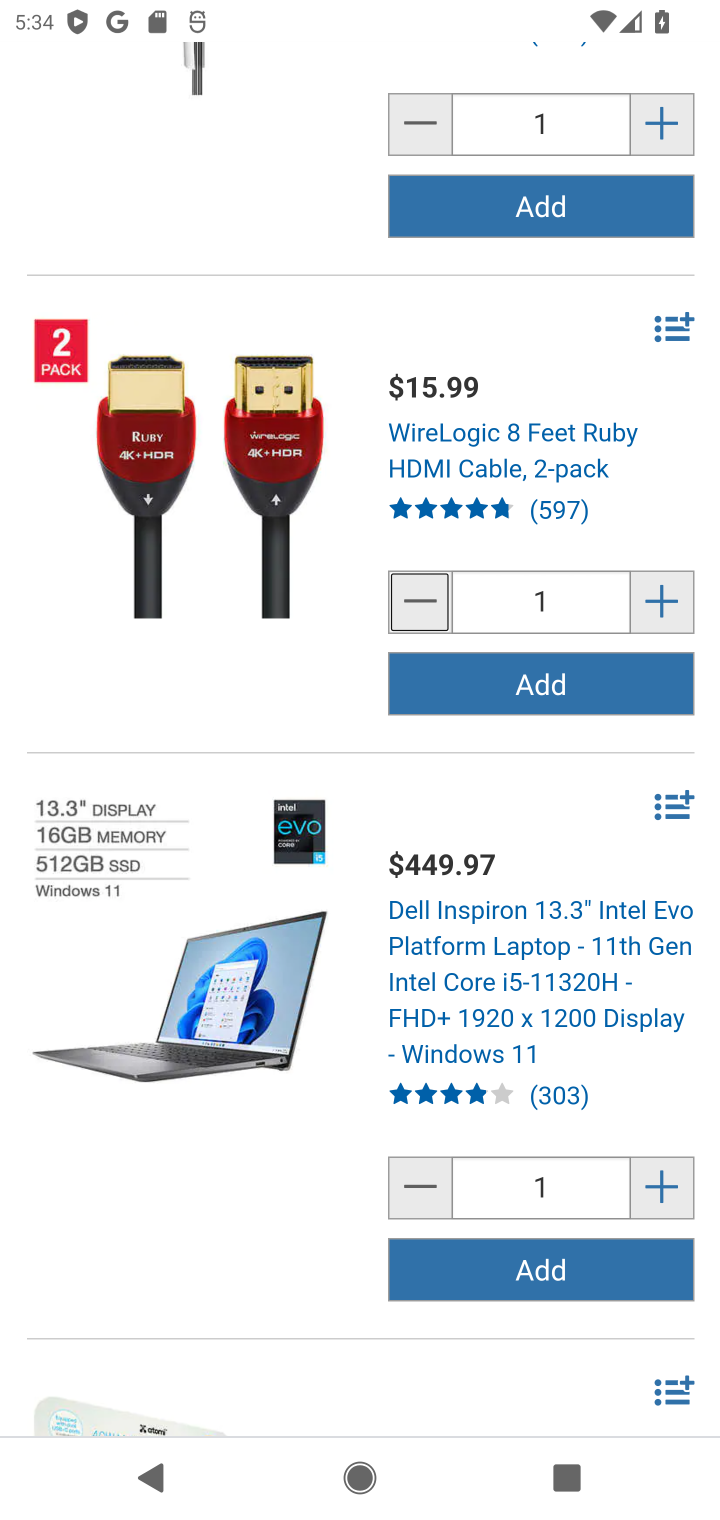
Step 29: drag from (477, 1060) to (448, 438)
Your task to perform on an android device: Add "usb-c to usb-b" to the cart on costco Image 30: 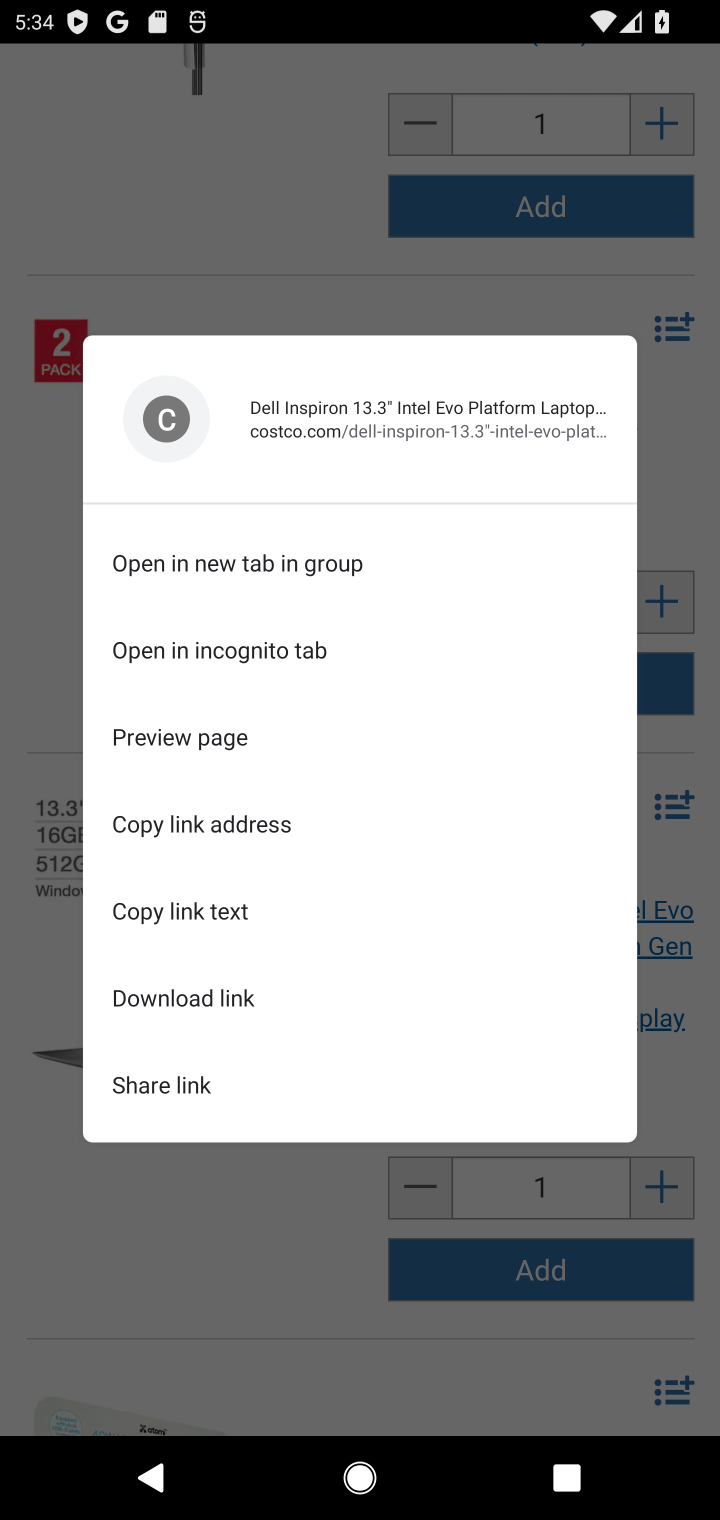
Step 30: drag from (283, 1243) to (277, 782)
Your task to perform on an android device: Add "usb-c to usb-b" to the cart on costco Image 31: 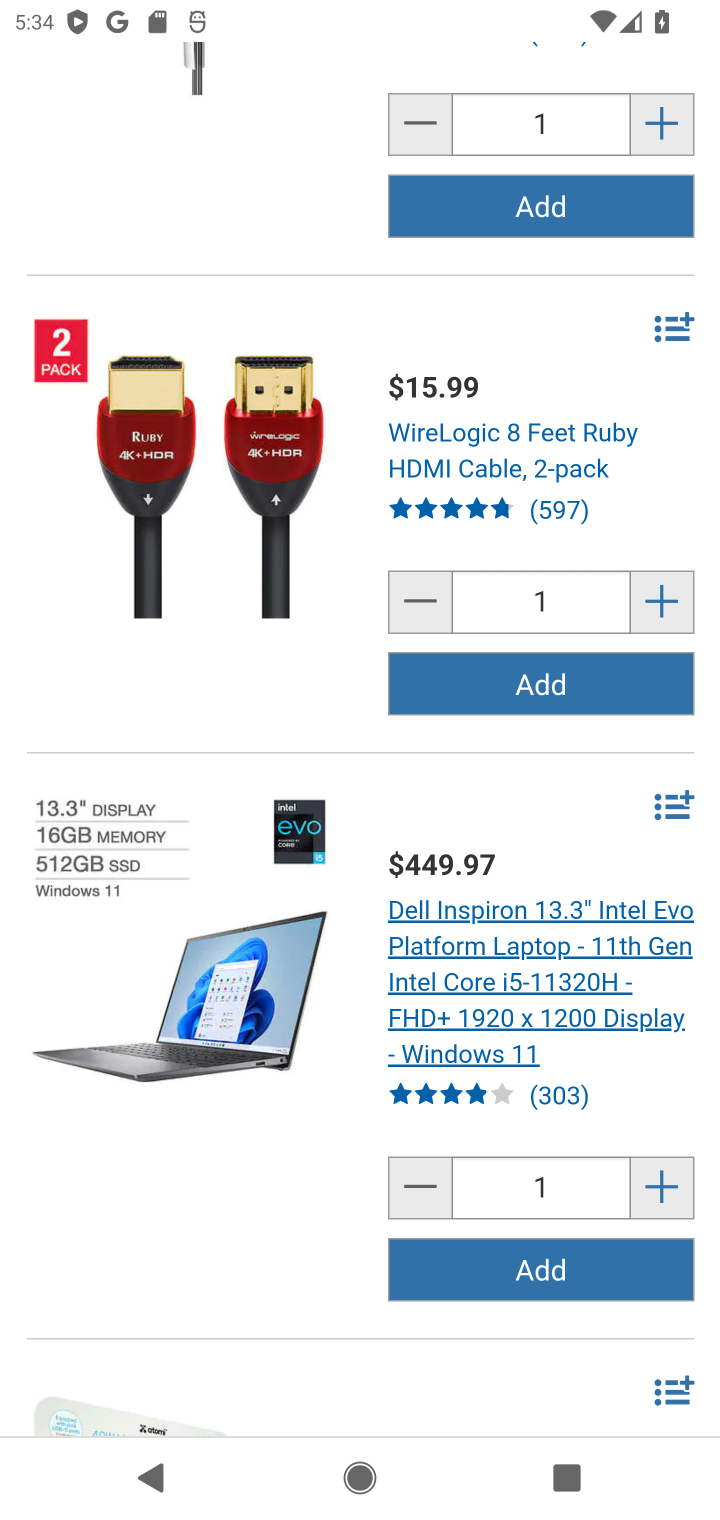
Step 31: drag from (217, 1280) to (222, 529)
Your task to perform on an android device: Add "usb-c to usb-b" to the cart on costco Image 32: 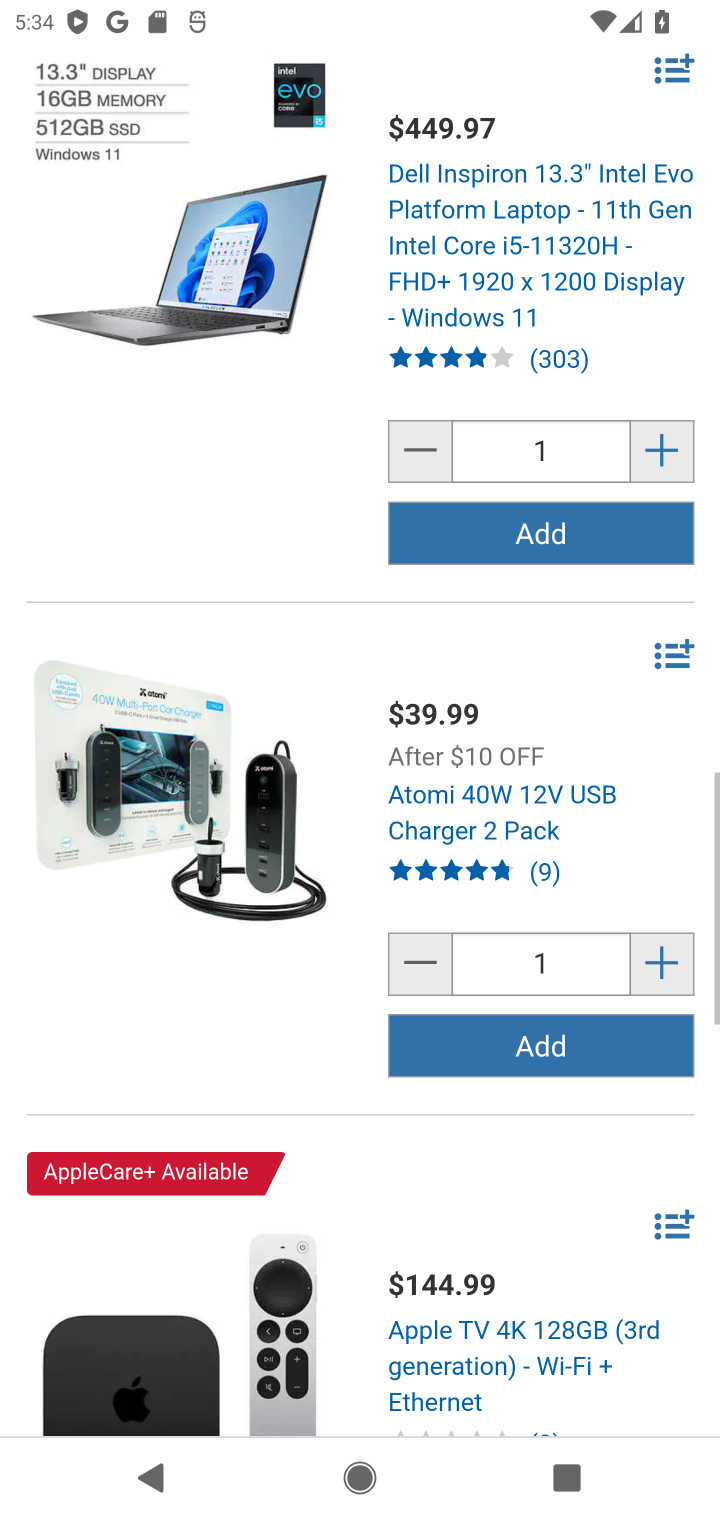
Step 32: drag from (327, 1204) to (381, 784)
Your task to perform on an android device: Add "usb-c to usb-b" to the cart on costco Image 33: 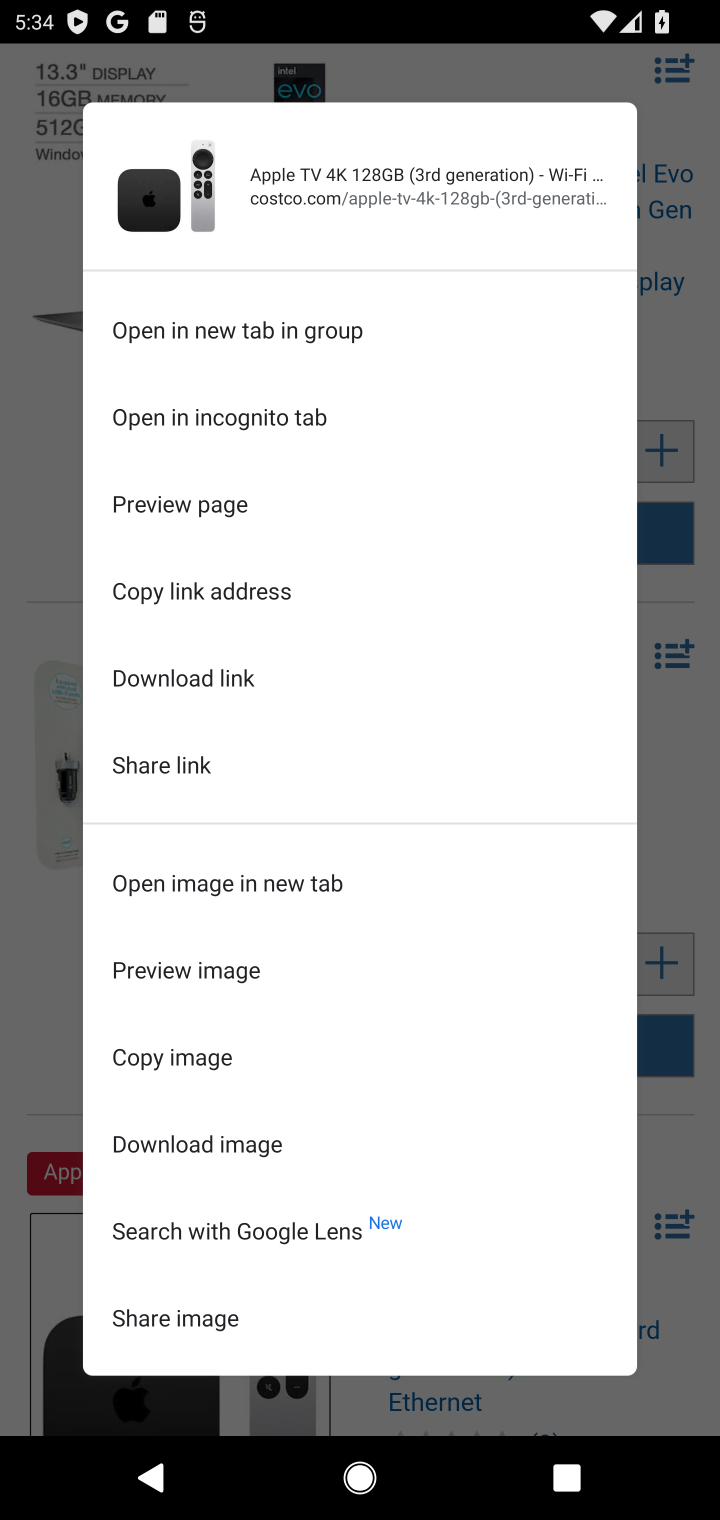
Step 33: click (656, 686)
Your task to perform on an android device: Add "usb-c to usb-b" to the cart on costco Image 34: 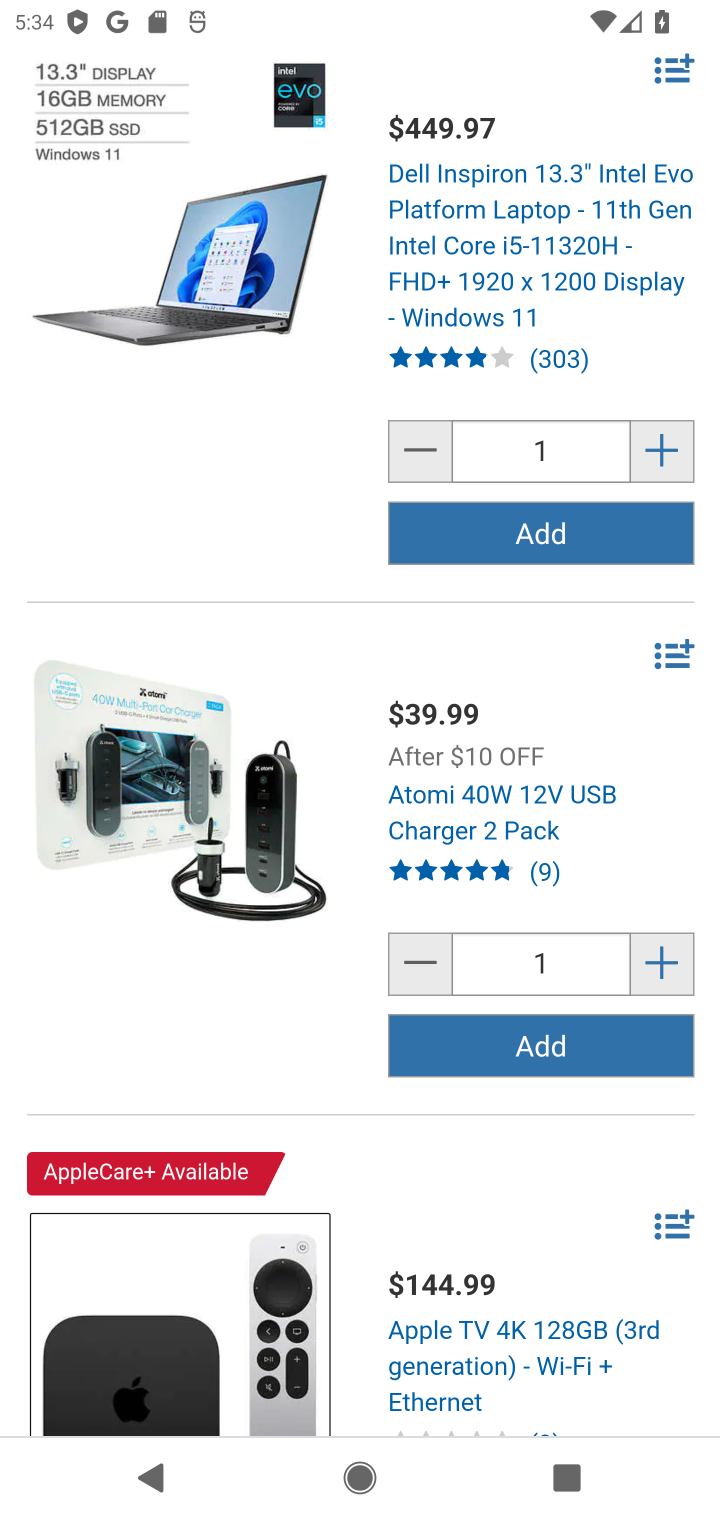
Step 34: task complete